Your task to perform on an android device: uninstall "Microsoft Authenticator" Image 0: 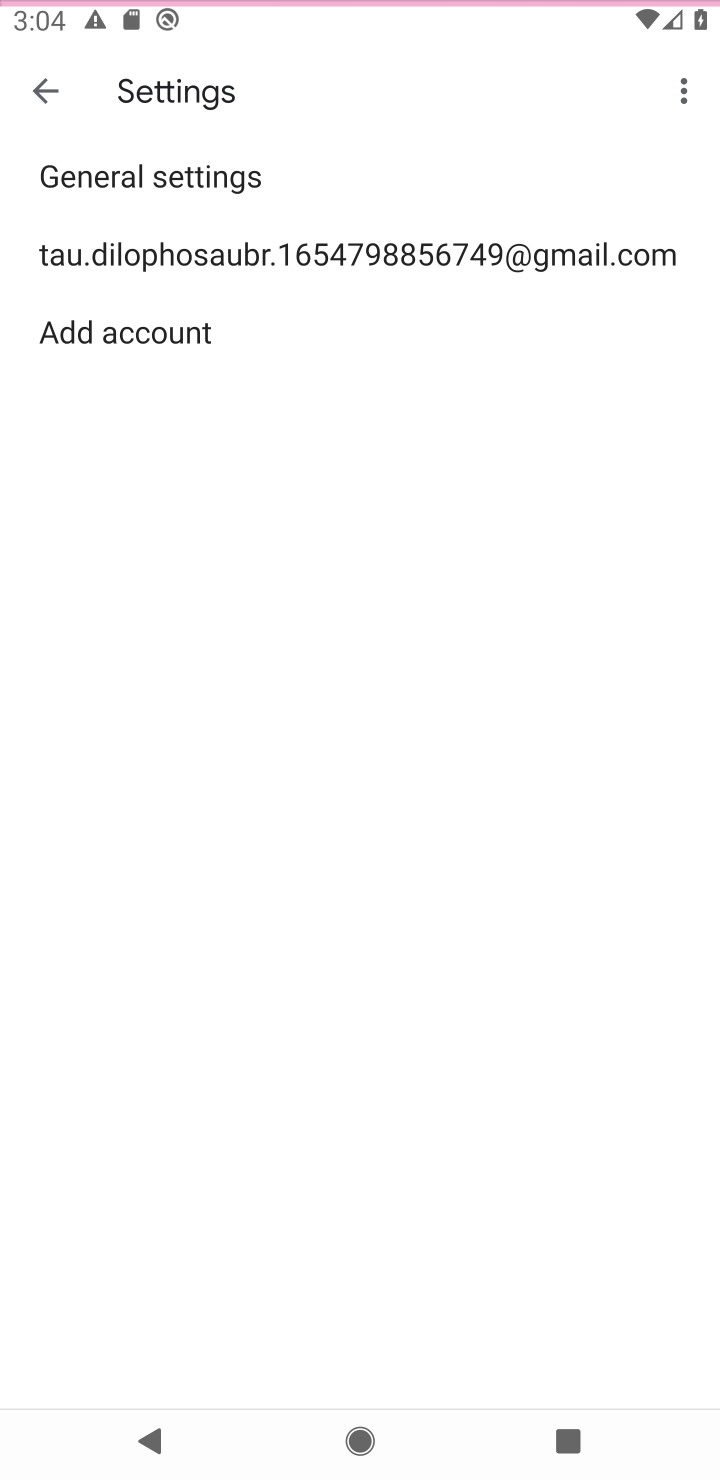
Step 0: press back button
Your task to perform on an android device: uninstall "Microsoft Authenticator" Image 1: 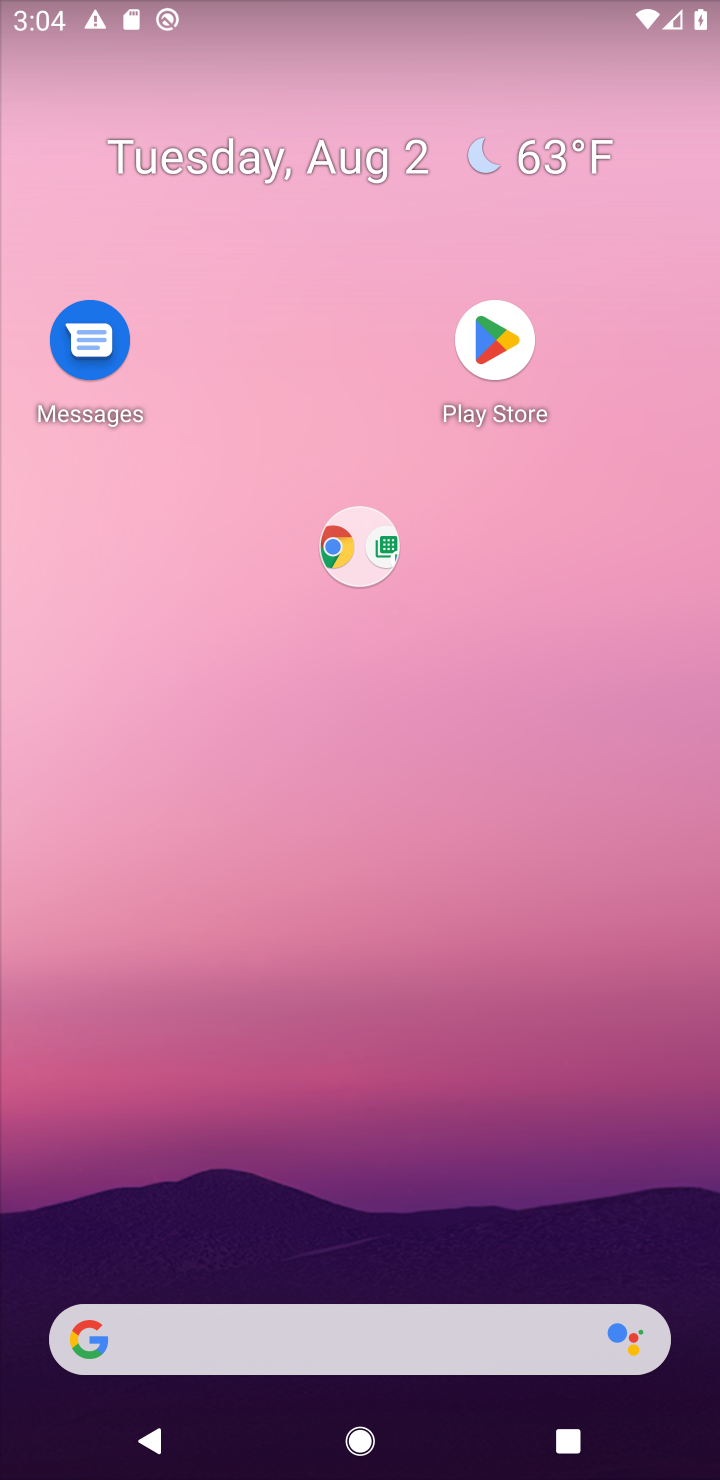
Step 1: click (41, 89)
Your task to perform on an android device: uninstall "Microsoft Authenticator" Image 2: 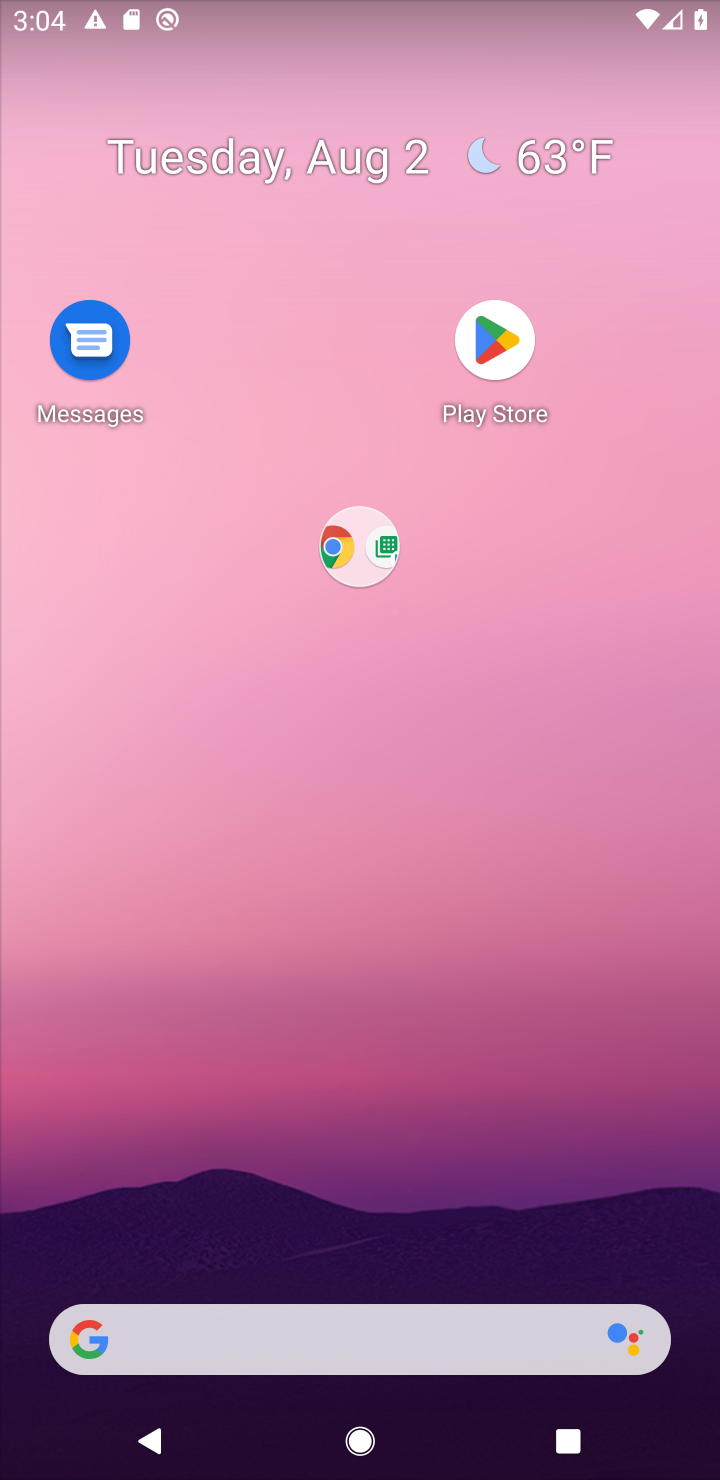
Step 2: press back button
Your task to perform on an android device: uninstall "Microsoft Authenticator" Image 3: 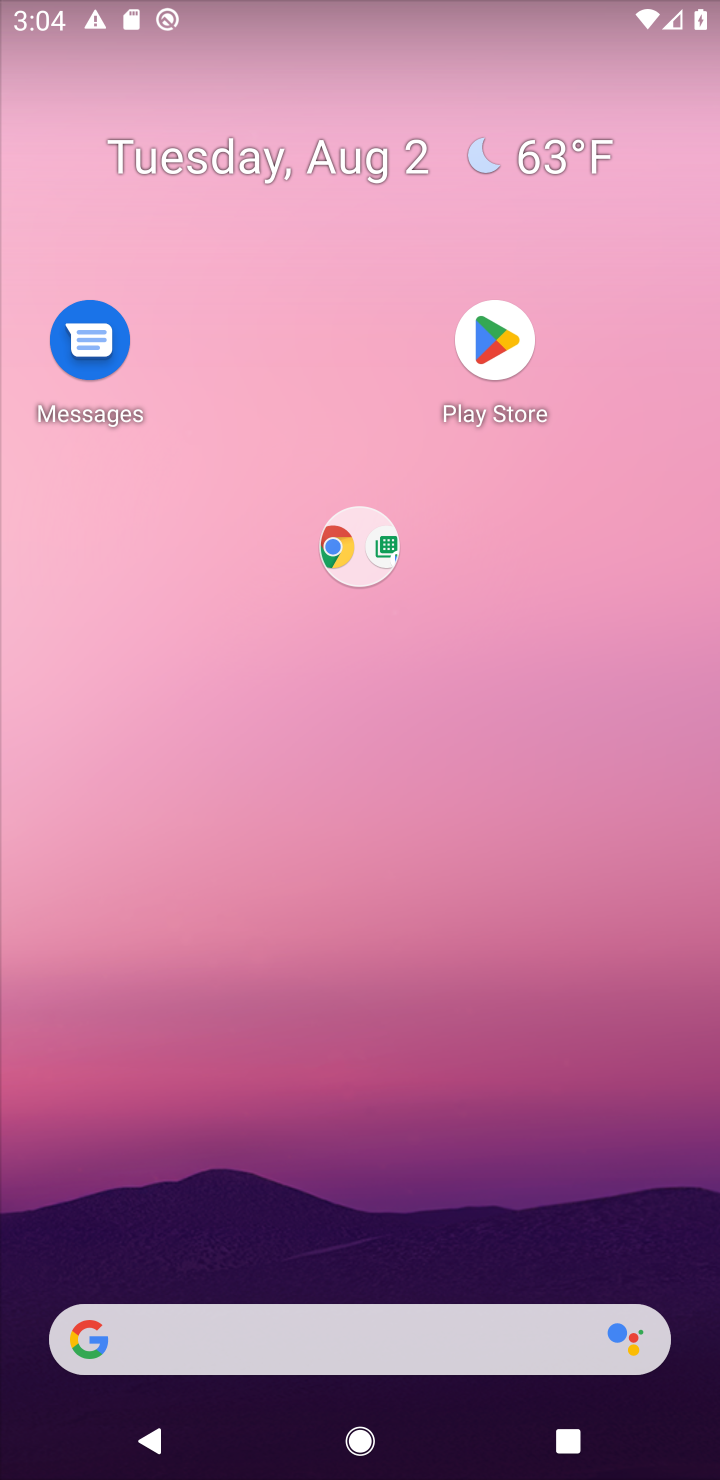
Step 3: click (472, 345)
Your task to perform on an android device: uninstall "Microsoft Authenticator" Image 4: 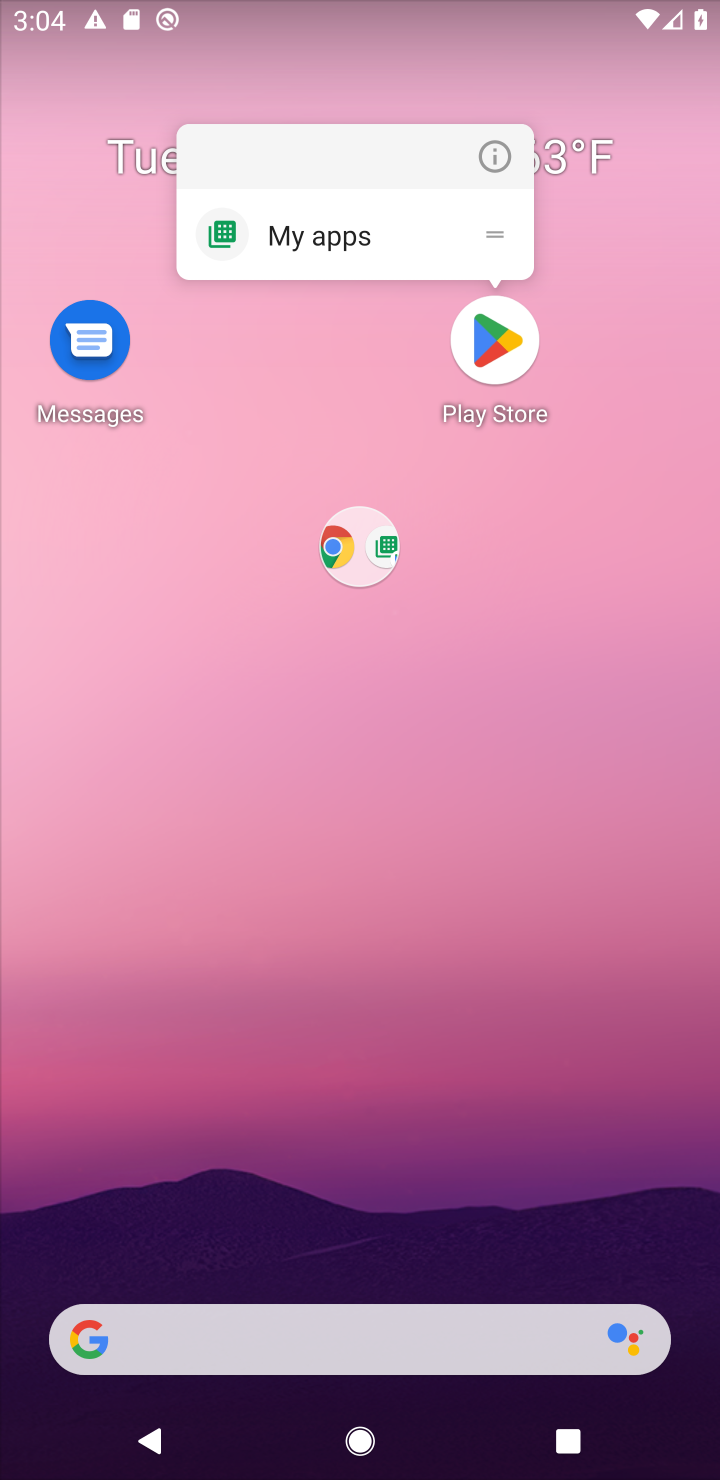
Step 4: click (478, 345)
Your task to perform on an android device: uninstall "Microsoft Authenticator" Image 5: 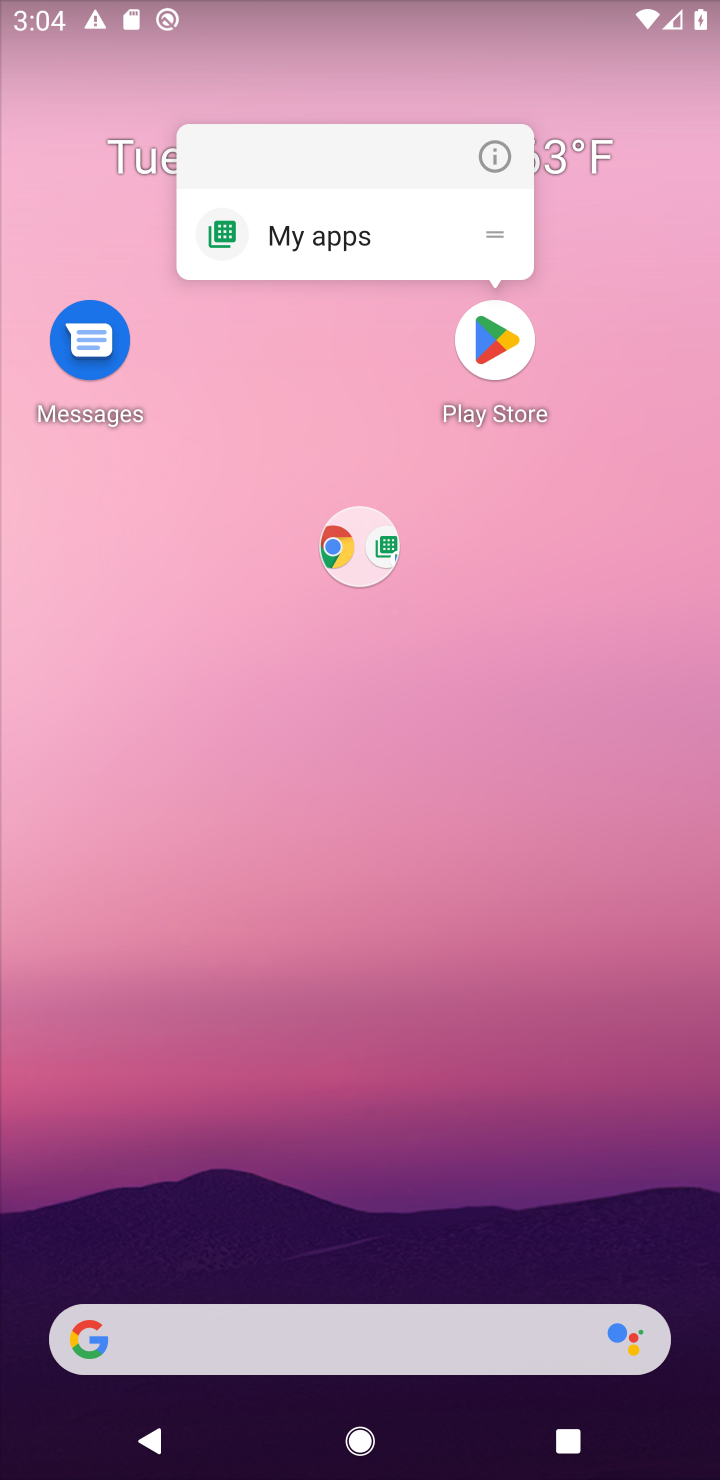
Step 5: click (339, 244)
Your task to perform on an android device: uninstall "Microsoft Authenticator" Image 6: 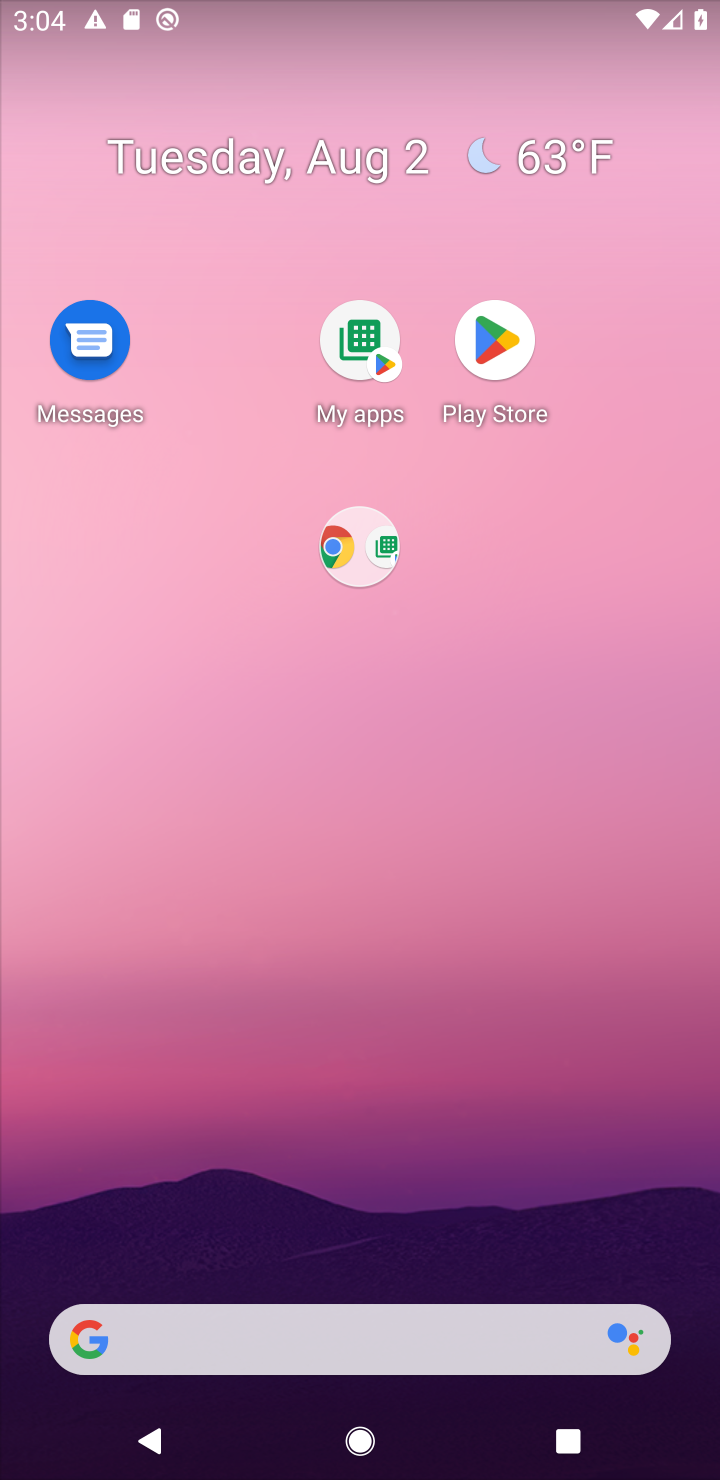
Step 6: drag from (452, 1248) to (394, 148)
Your task to perform on an android device: uninstall "Microsoft Authenticator" Image 7: 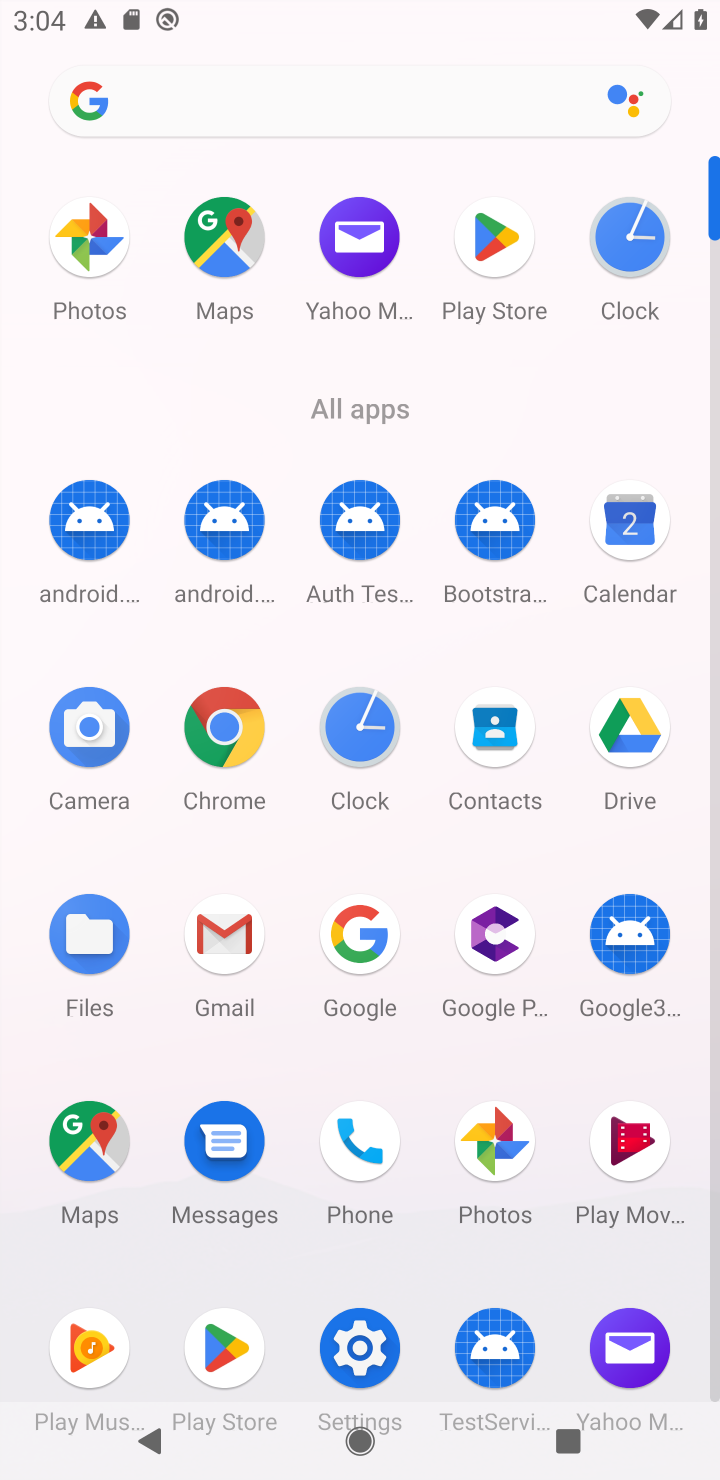
Step 7: click (487, 232)
Your task to perform on an android device: uninstall "Microsoft Authenticator" Image 8: 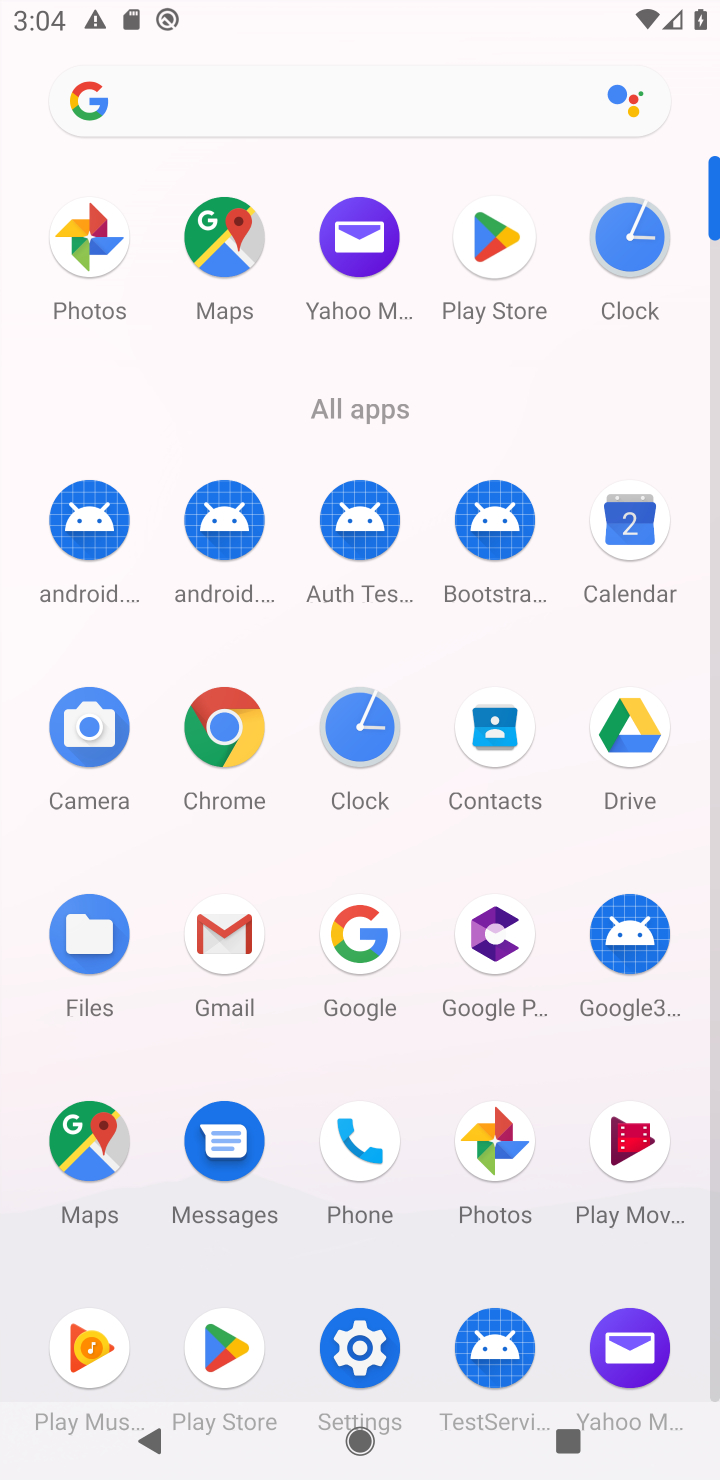
Step 8: click (487, 235)
Your task to perform on an android device: uninstall "Microsoft Authenticator" Image 9: 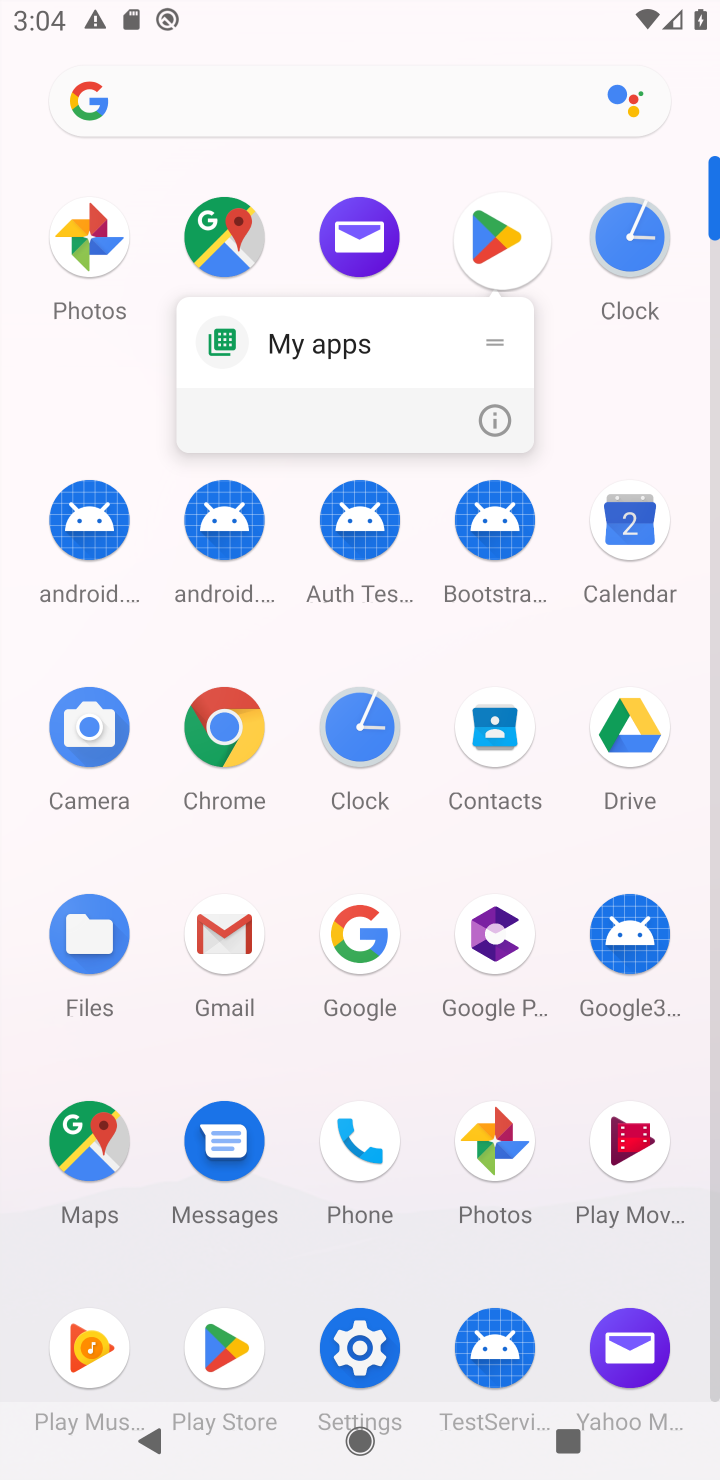
Step 9: click (495, 239)
Your task to perform on an android device: uninstall "Microsoft Authenticator" Image 10: 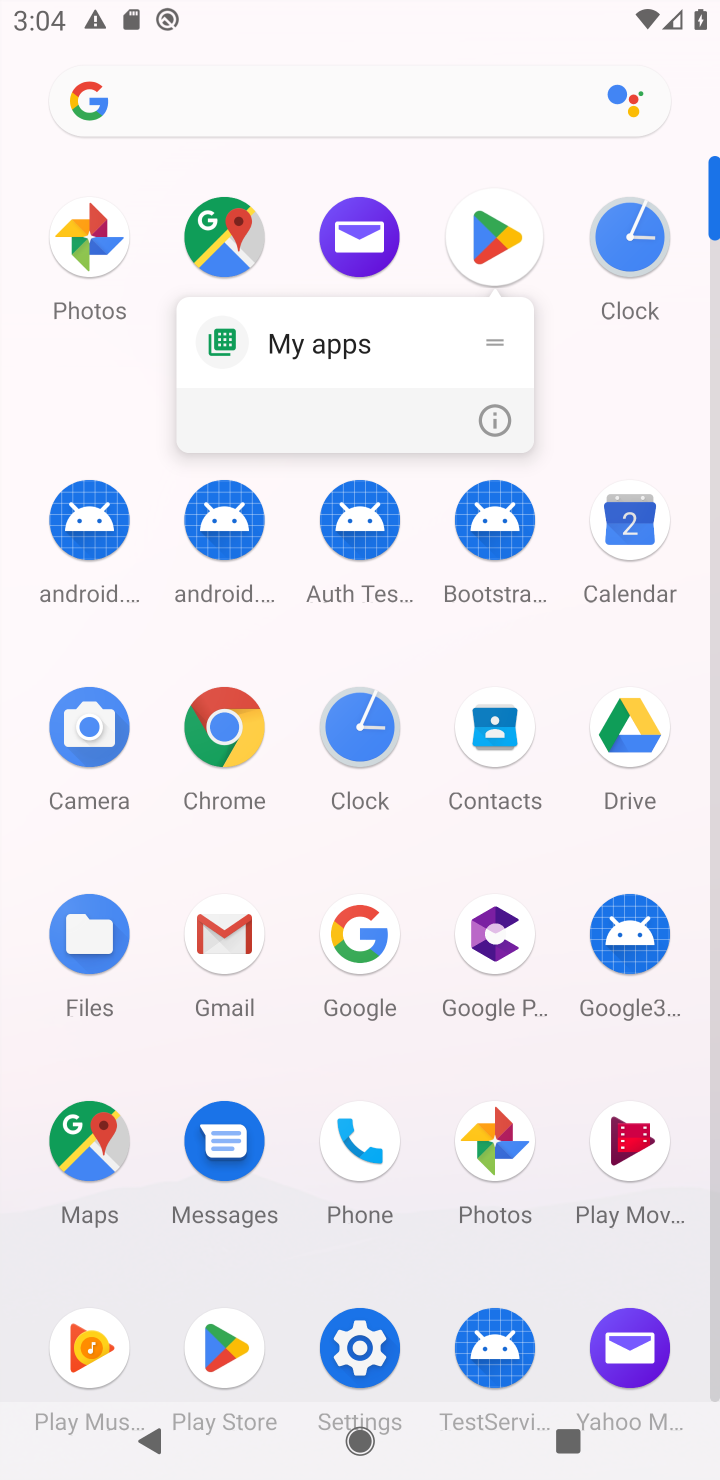
Step 10: click (310, 341)
Your task to perform on an android device: uninstall "Microsoft Authenticator" Image 11: 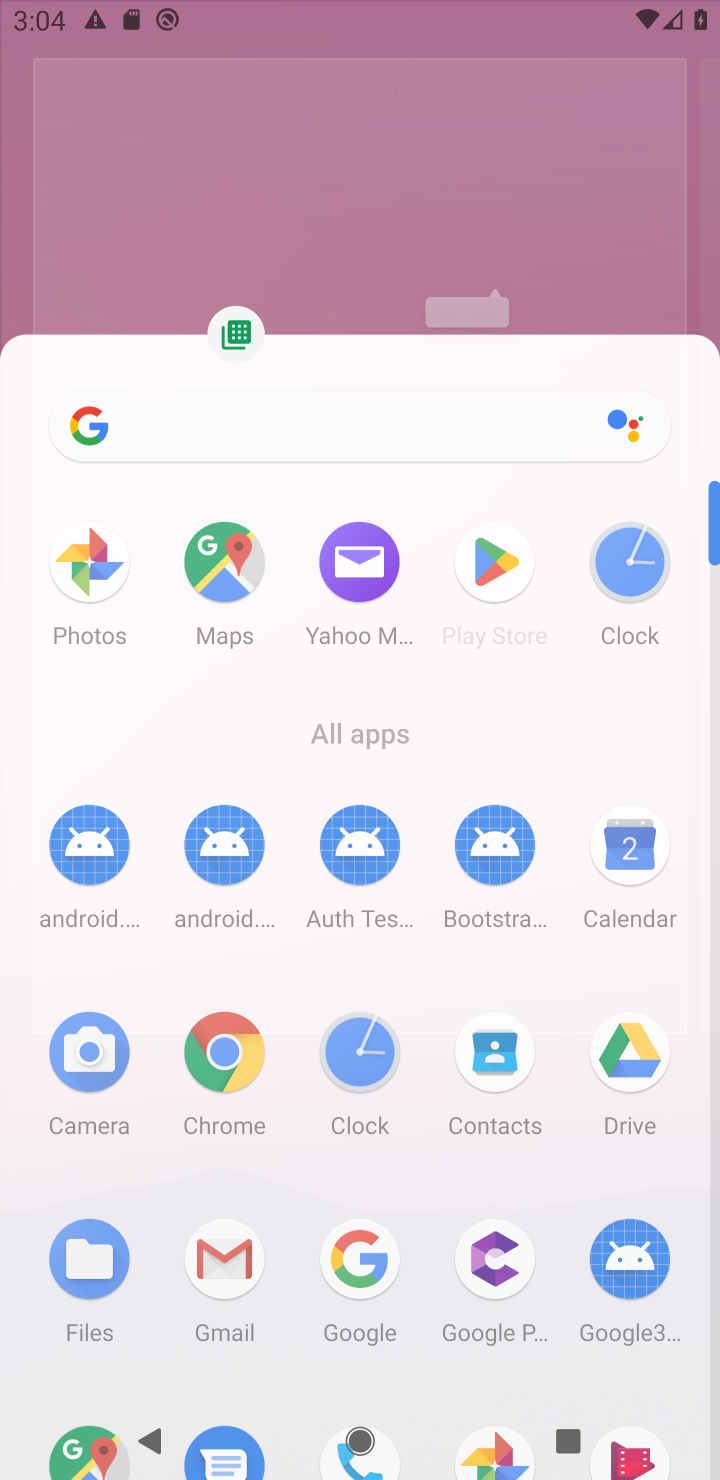
Step 11: click (375, 339)
Your task to perform on an android device: uninstall "Microsoft Authenticator" Image 12: 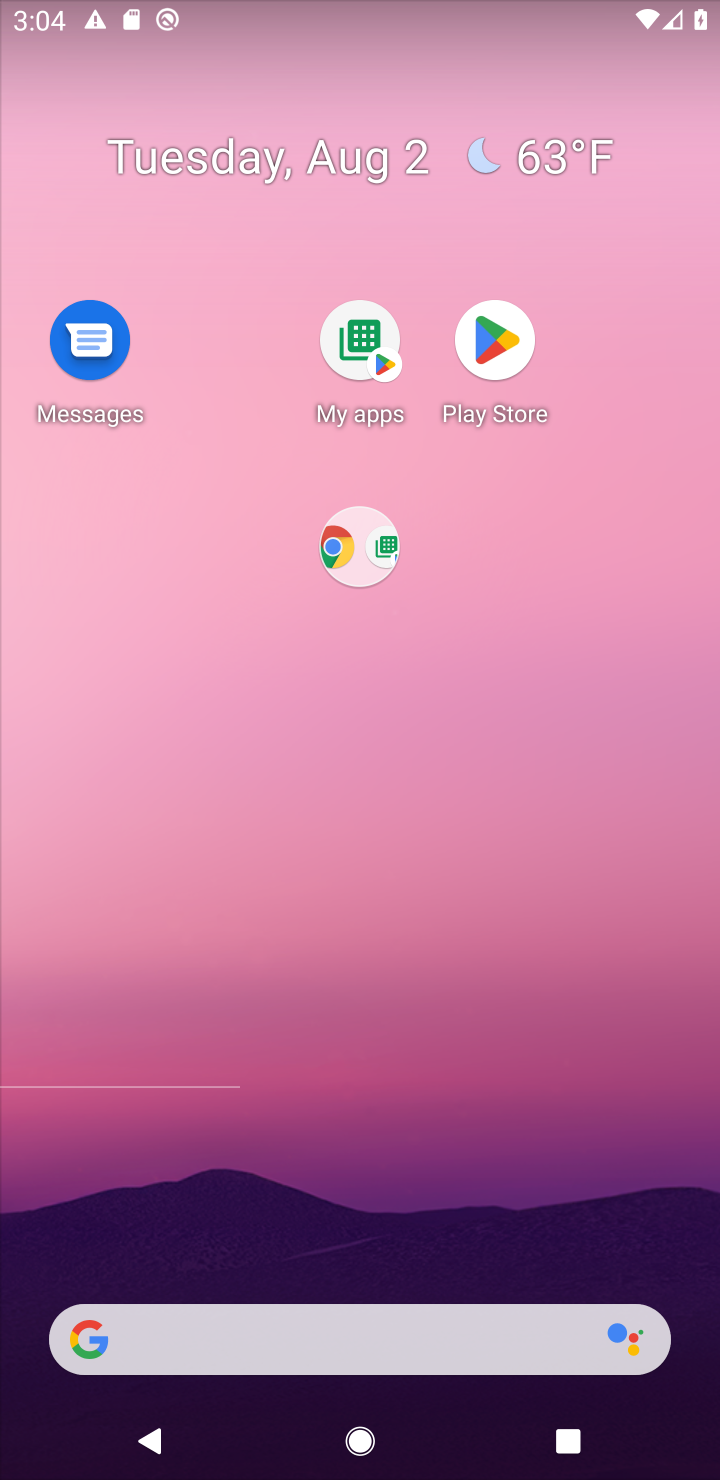
Step 12: click (475, 326)
Your task to perform on an android device: uninstall "Microsoft Authenticator" Image 13: 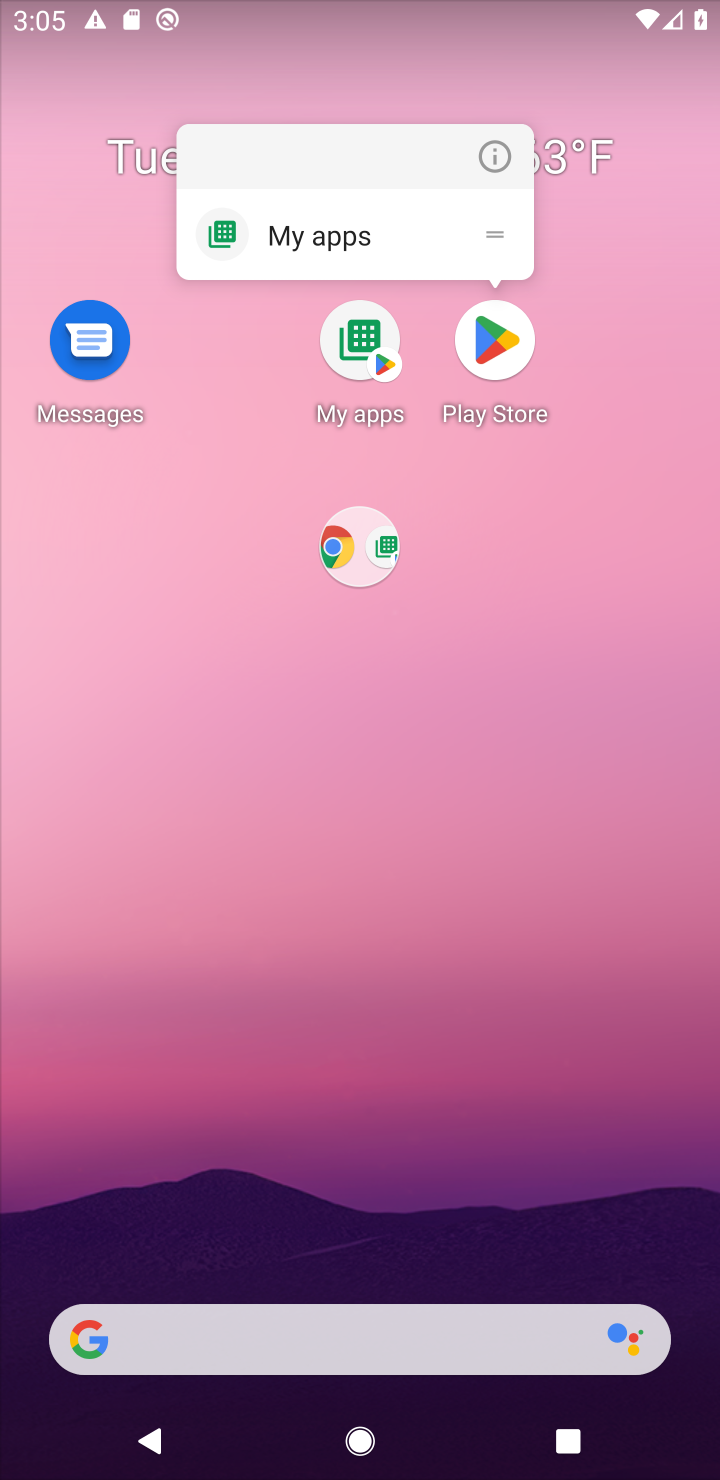
Step 13: click (504, 379)
Your task to perform on an android device: uninstall "Microsoft Authenticator" Image 14: 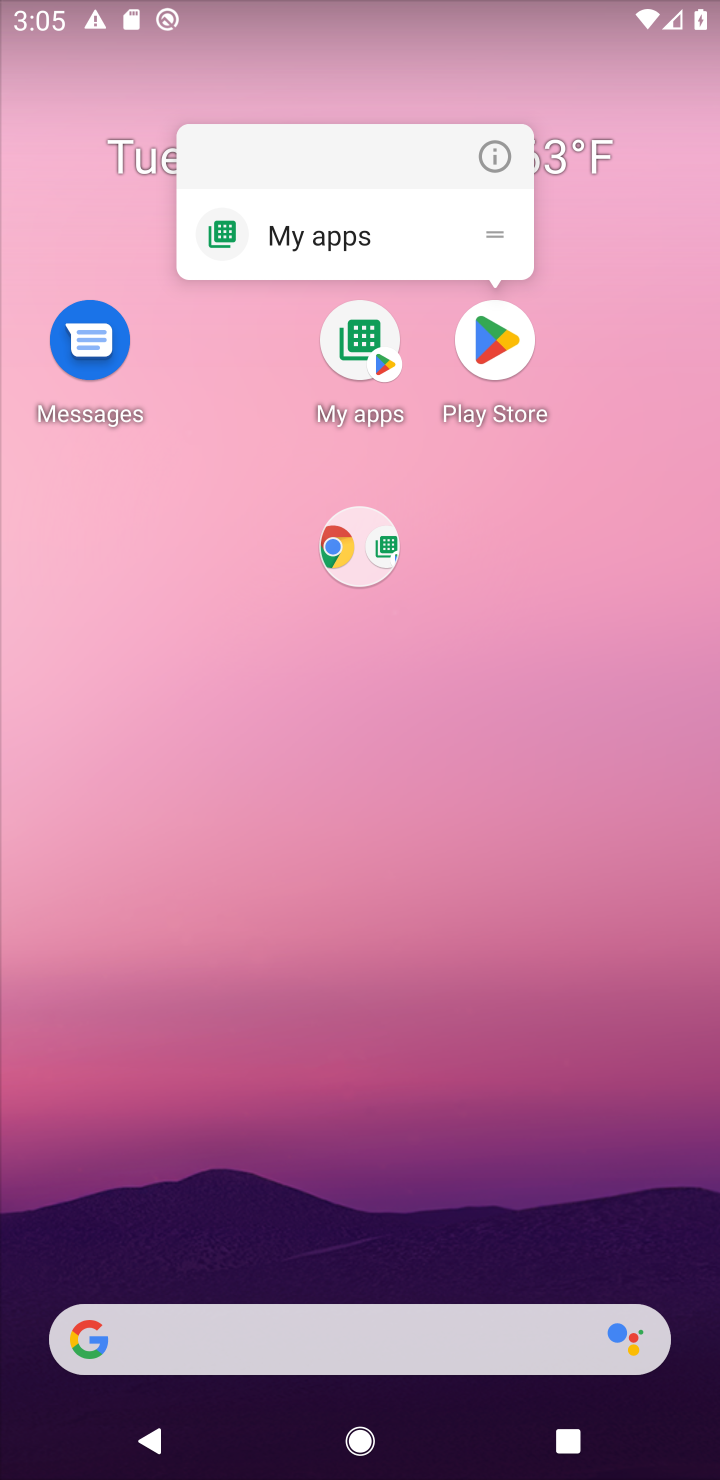
Step 14: click (509, 360)
Your task to perform on an android device: uninstall "Microsoft Authenticator" Image 15: 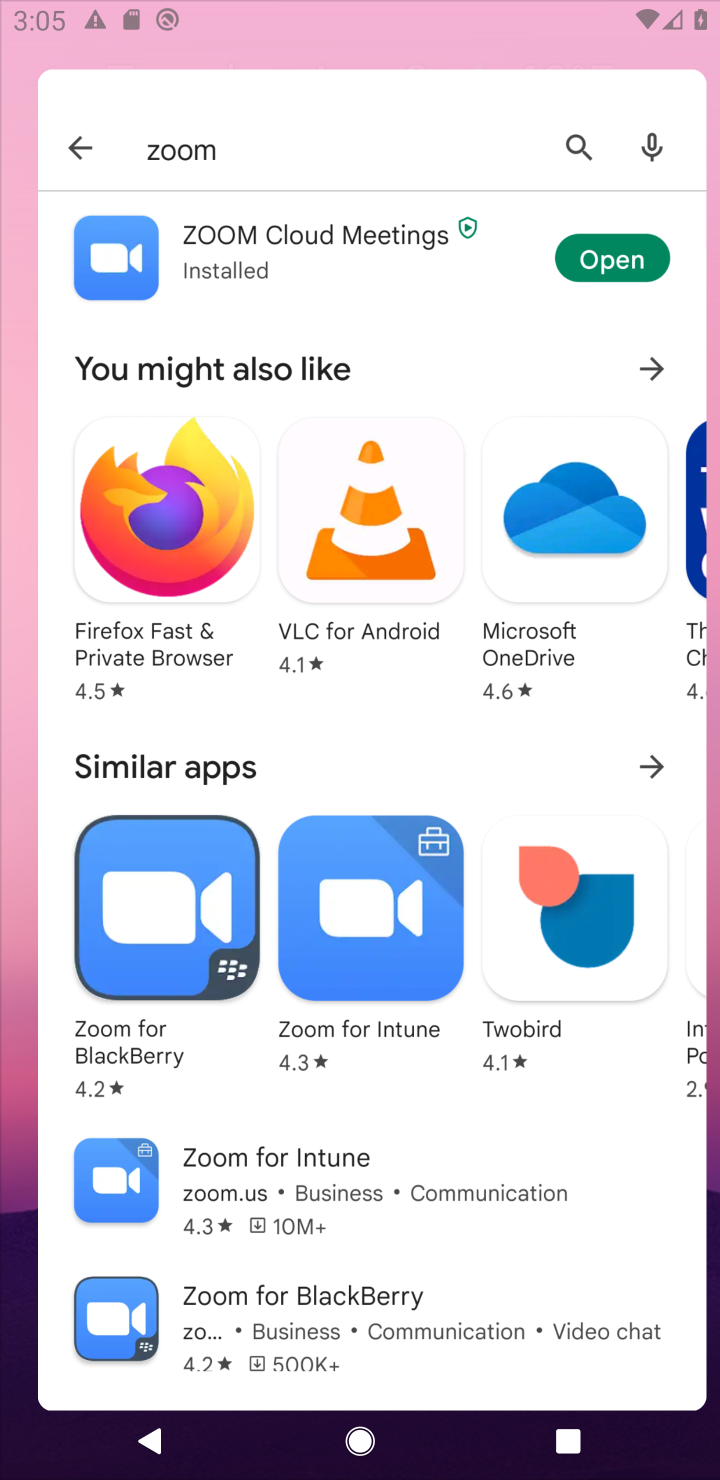
Step 15: click (372, 238)
Your task to perform on an android device: uninstall "Microsoft Authenticator" Image 16: 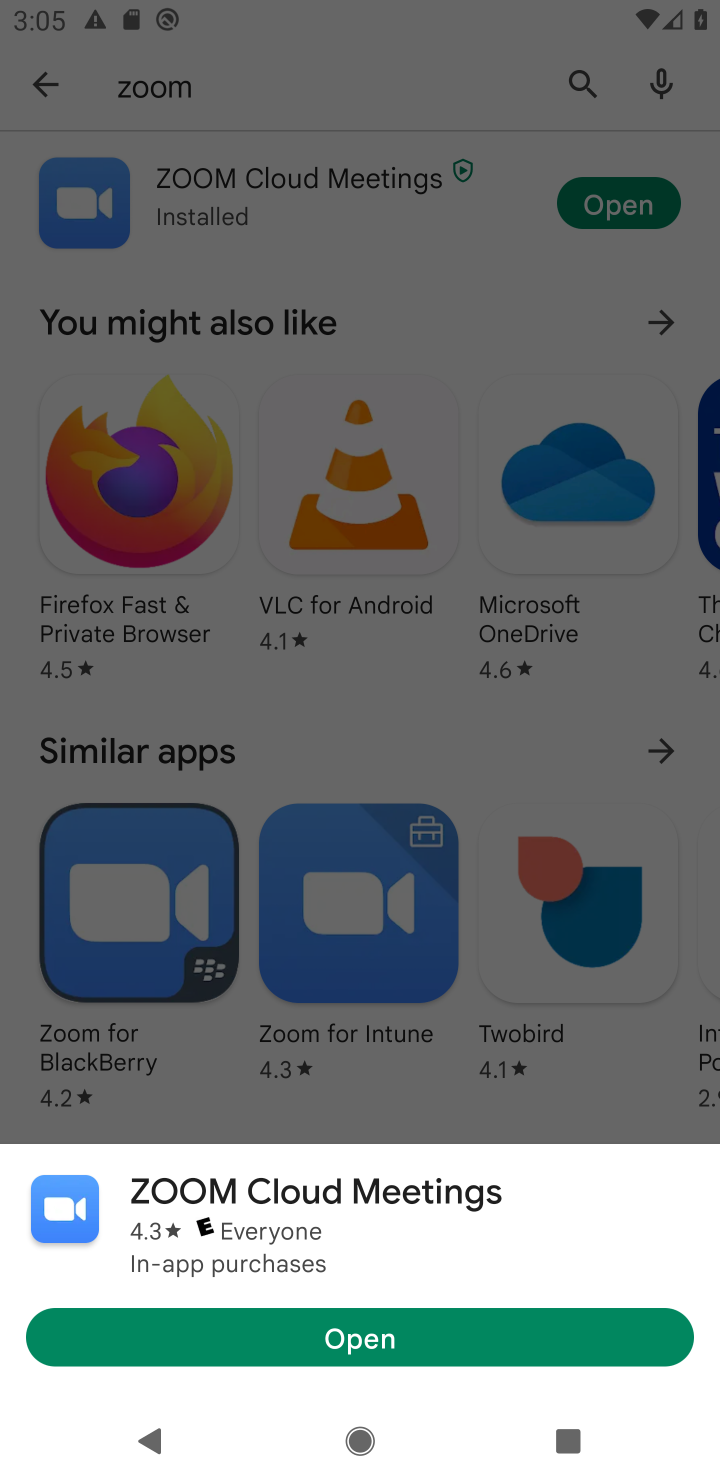
Step 16: click (574, 73)
Your task to perform on an android device: uninstall "Microsoft Authenticator" Image 17: 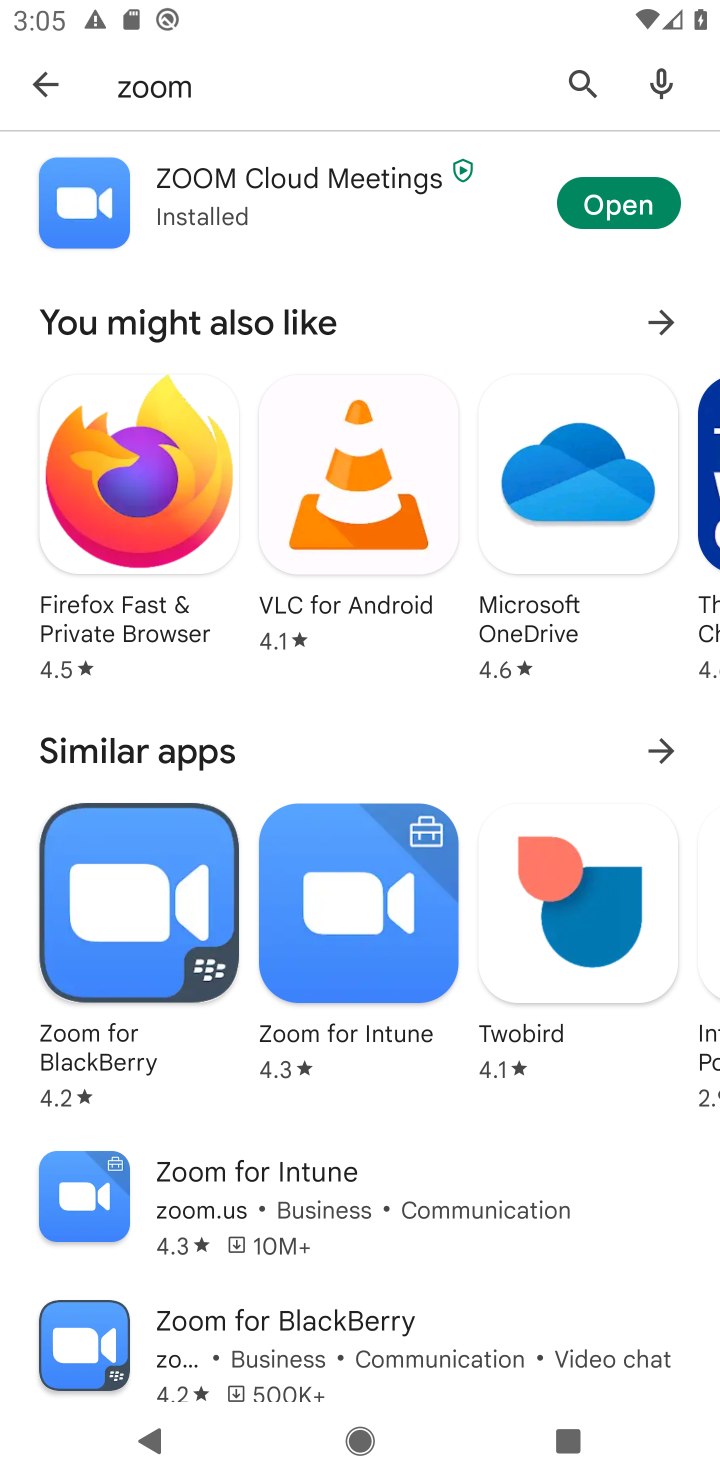
Step 17: click (576, 75)
Your task to perform on an android device: uninstall "Microsoft Authenticator" Image 18: 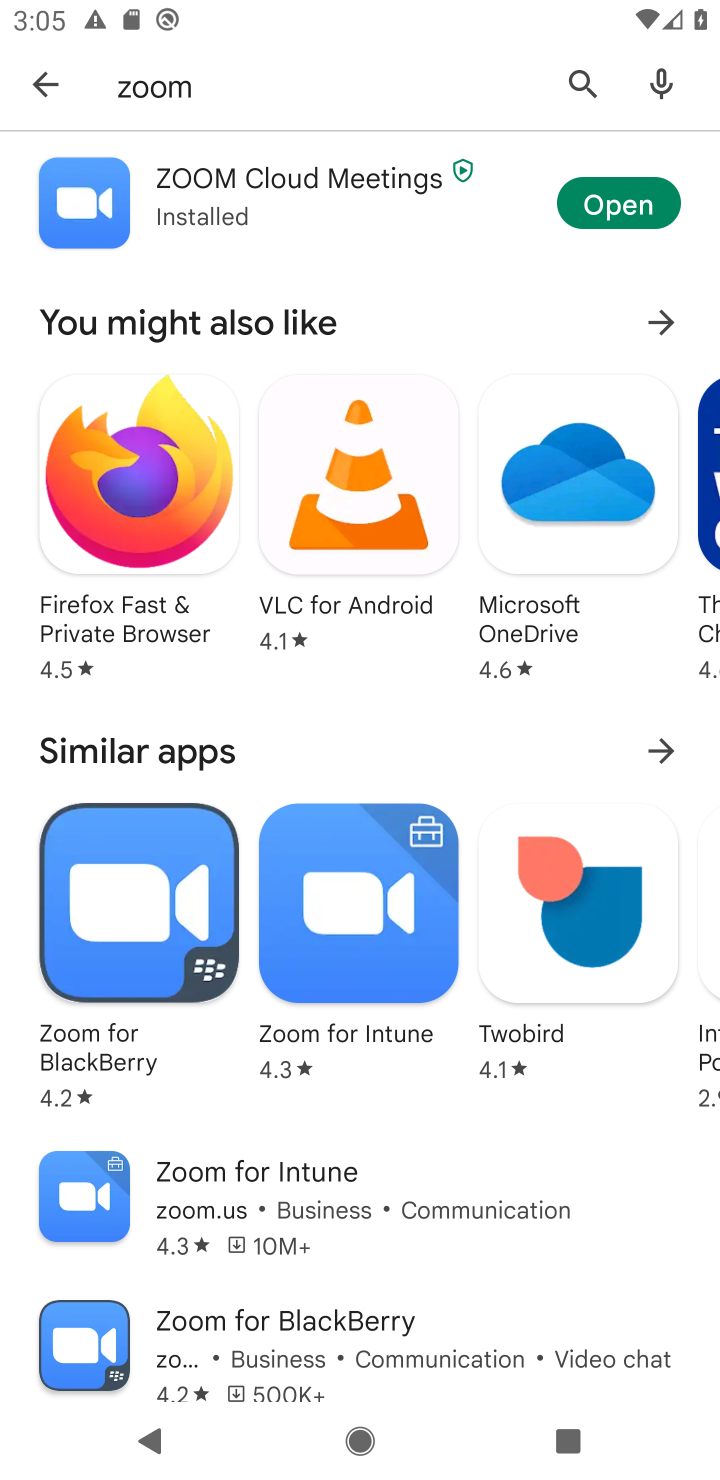
Step 18: click (587, 73)
Your task to perform on an android device: uninstall "Microsoft Authenticator" Image 19: 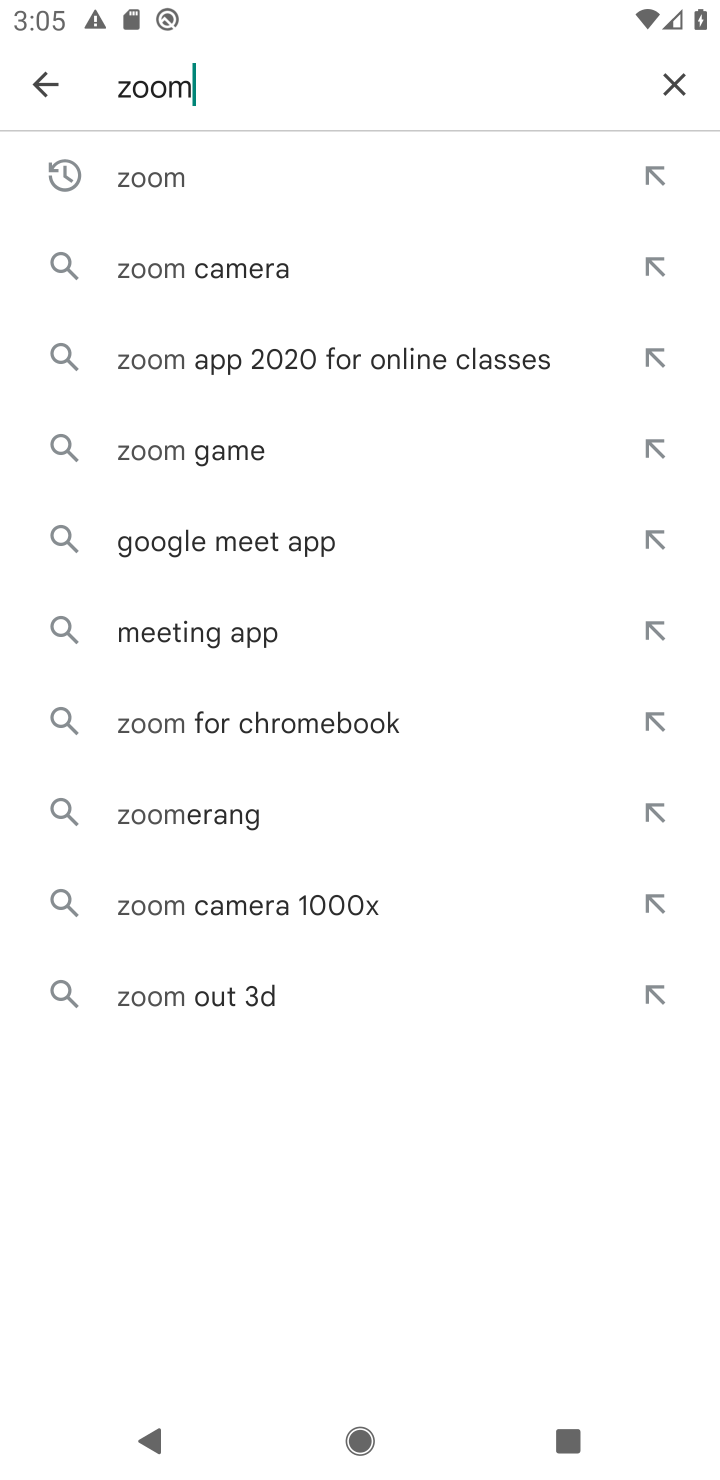
Step 19: click (593, 71)
Your task to perform on an android device: uninstall "Microsoft Authenticator" Image 20: 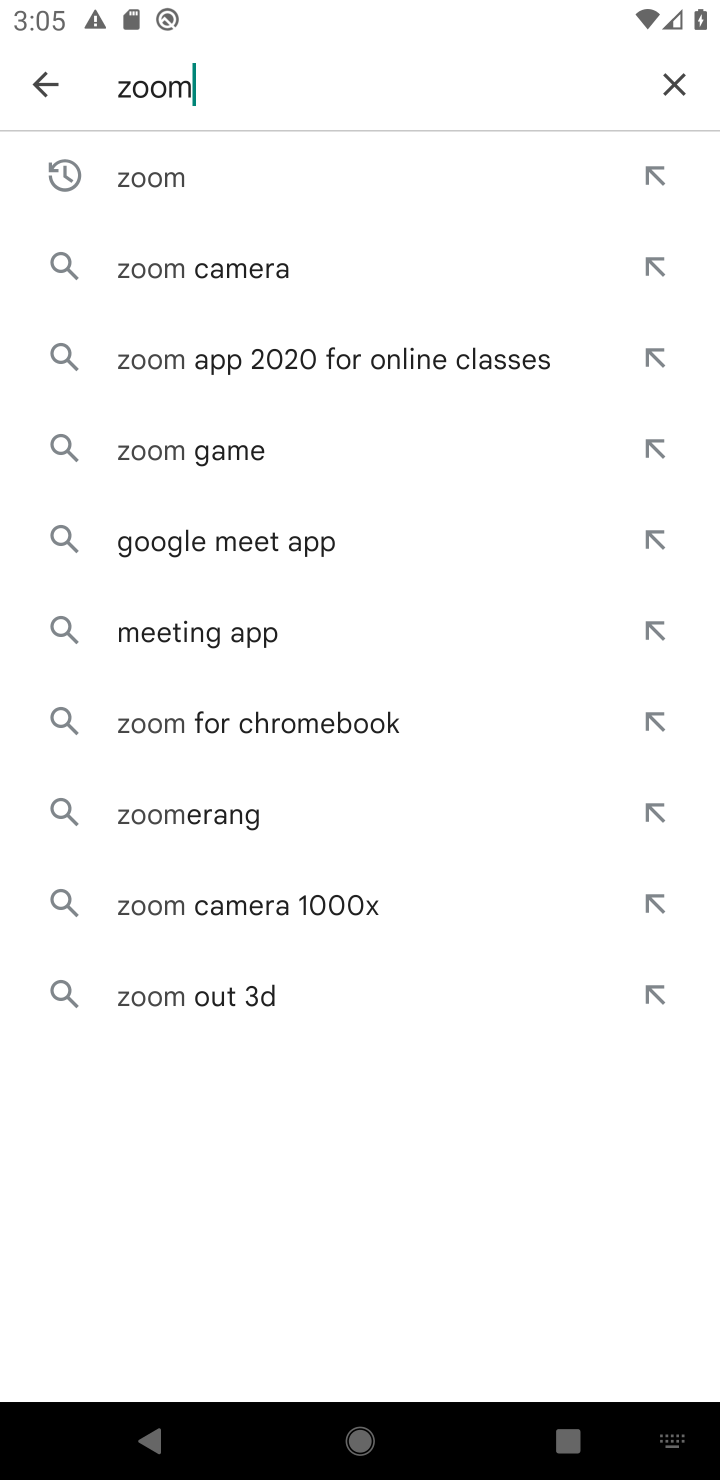
Step 20: click (670, 75)
Your task to perform on an android device: uninstall "Microsoft Authenticator" Image 21: 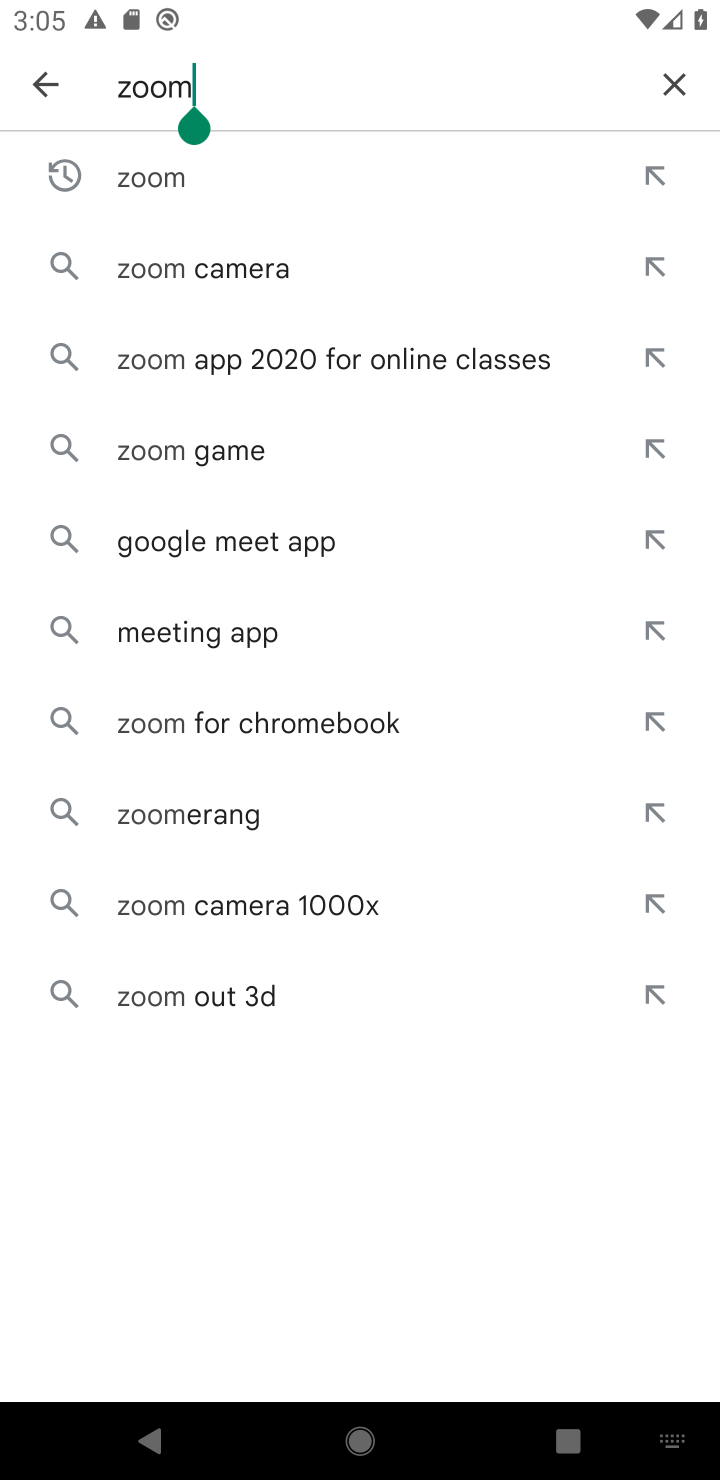
Step 21: click (672, 71)
Your task to perform on an android device: uninstall "Microsoft Authenticator" Image 22: 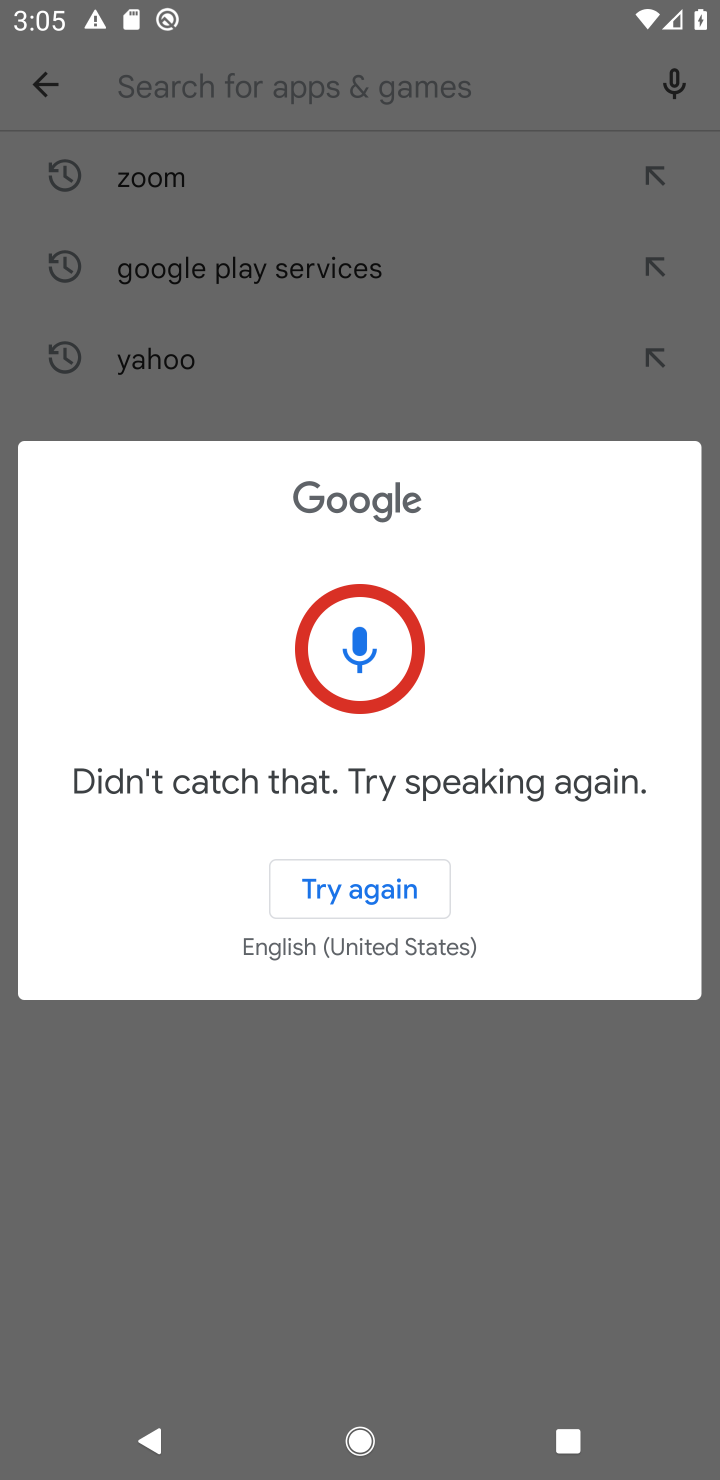
Step 22: type "microsoft"
Your task to perform on an android device: uninstall "Microsoft Authenticator" Image 23: 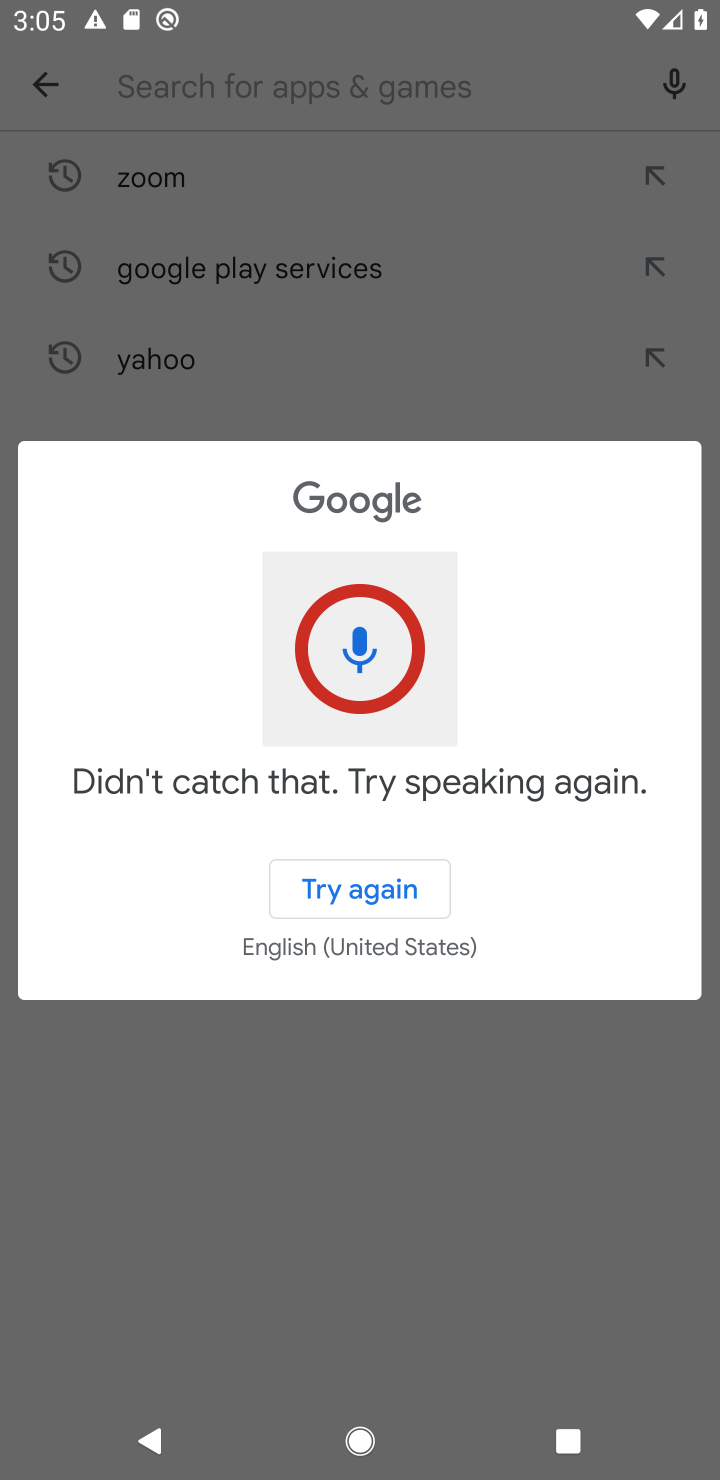
Step 23: click (436, 349)
Your task to perform on an android device: uninstall "Microsoft Authenticator" Image 24: 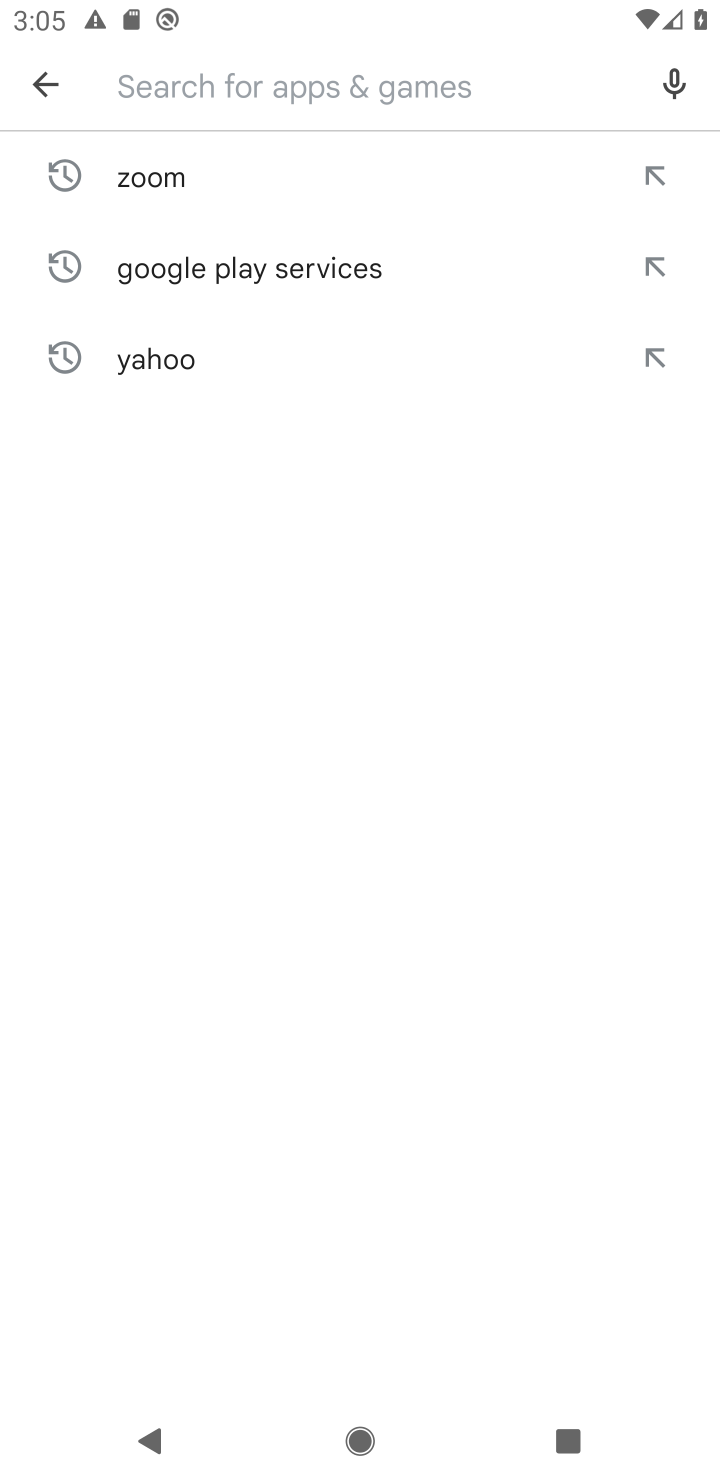
Step 24: click (442, 371)
Your task to perform on an android device: uninstall "Microsoft Authenticator" Image 25: 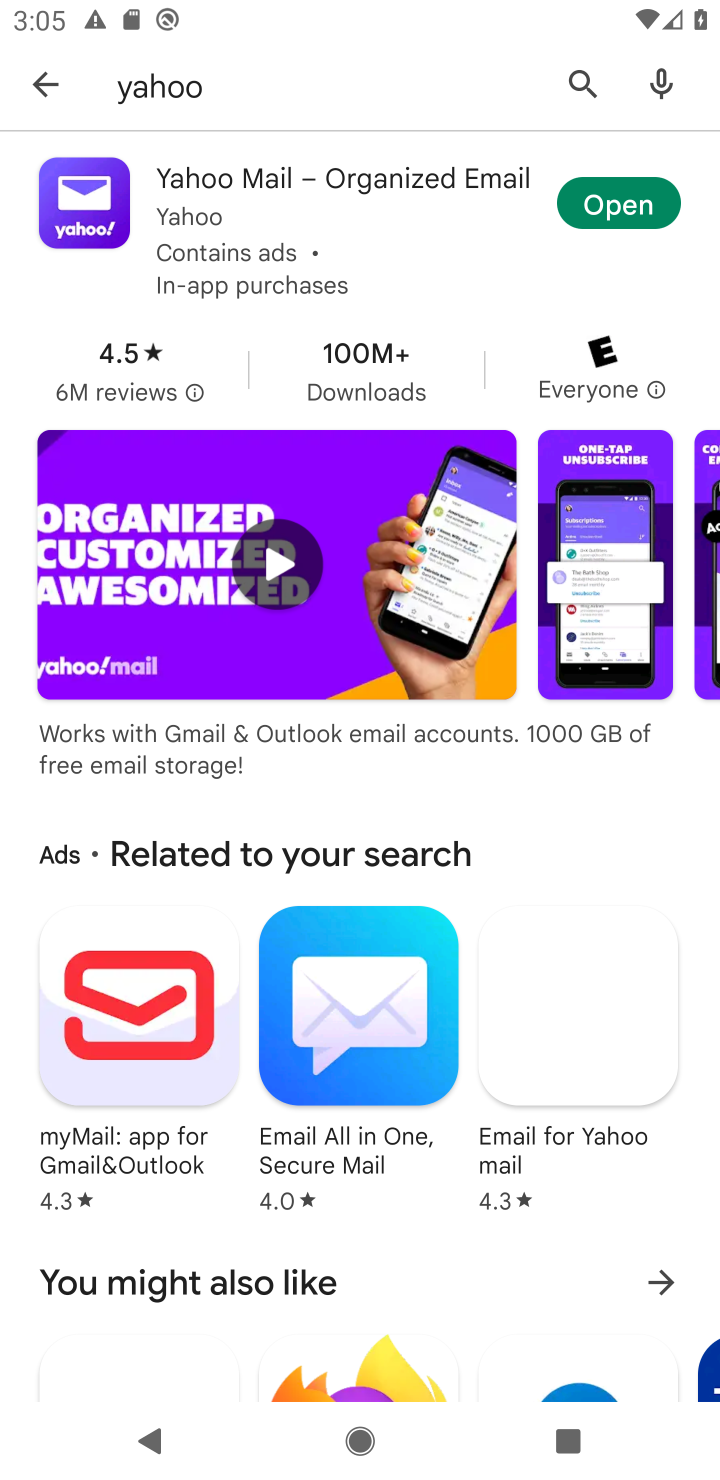
Step 25: click (572, 73)
Your task to perform on an android device: uninstall "Microsoft Authenticator" Image 26: 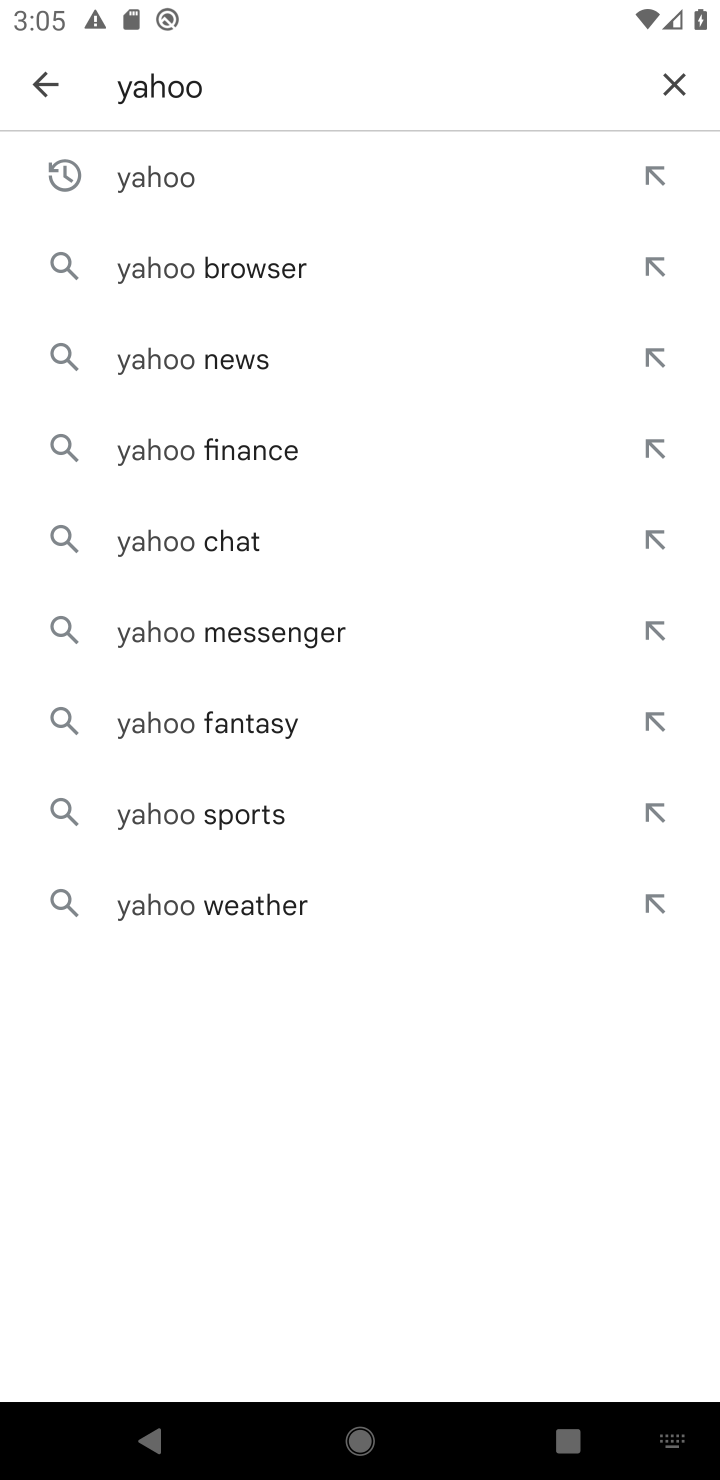
Step 26: type "microsoft"
Your task to perform on an android device: uninstall "Microsoft Authenticator" Image 27: 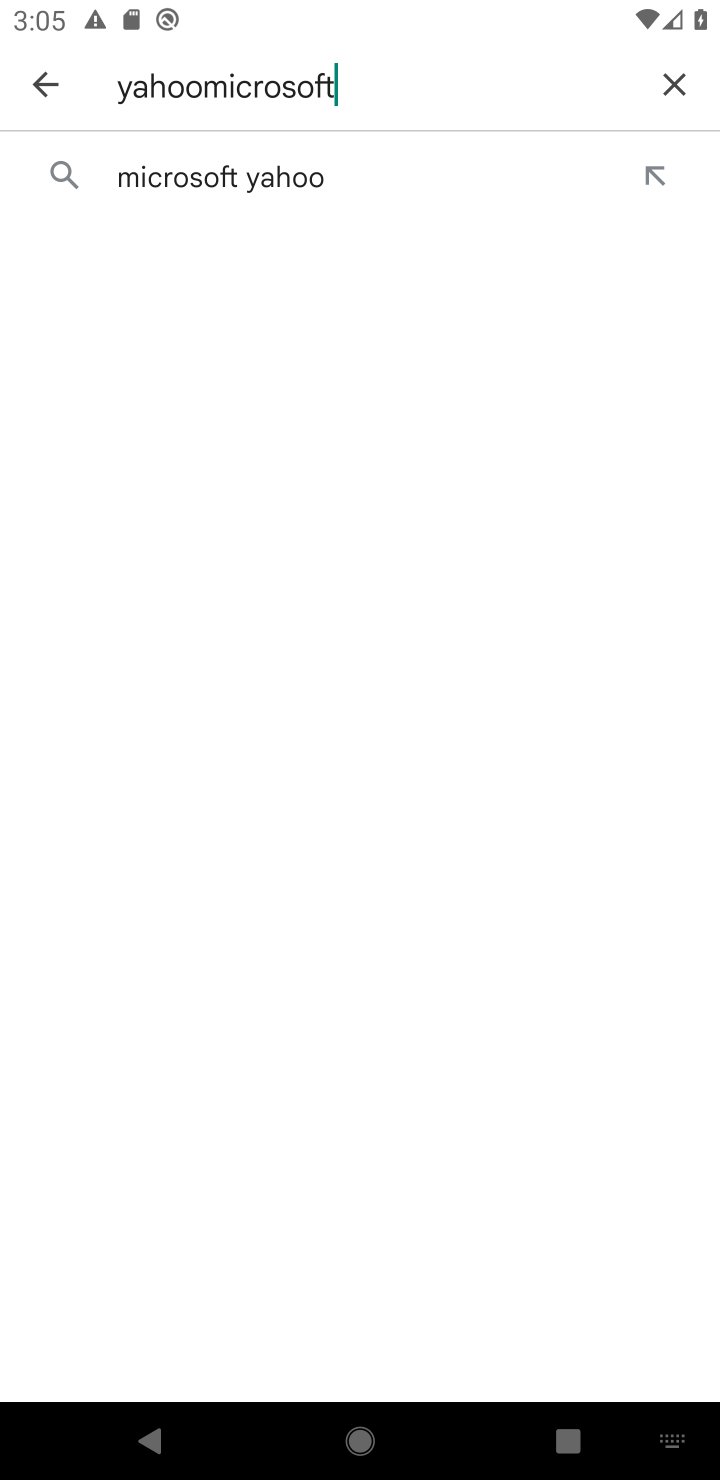
Step 27: click (229, 180)
Your task to perform on an android device: uninstall "Microsoft Authenticator" Image 28: 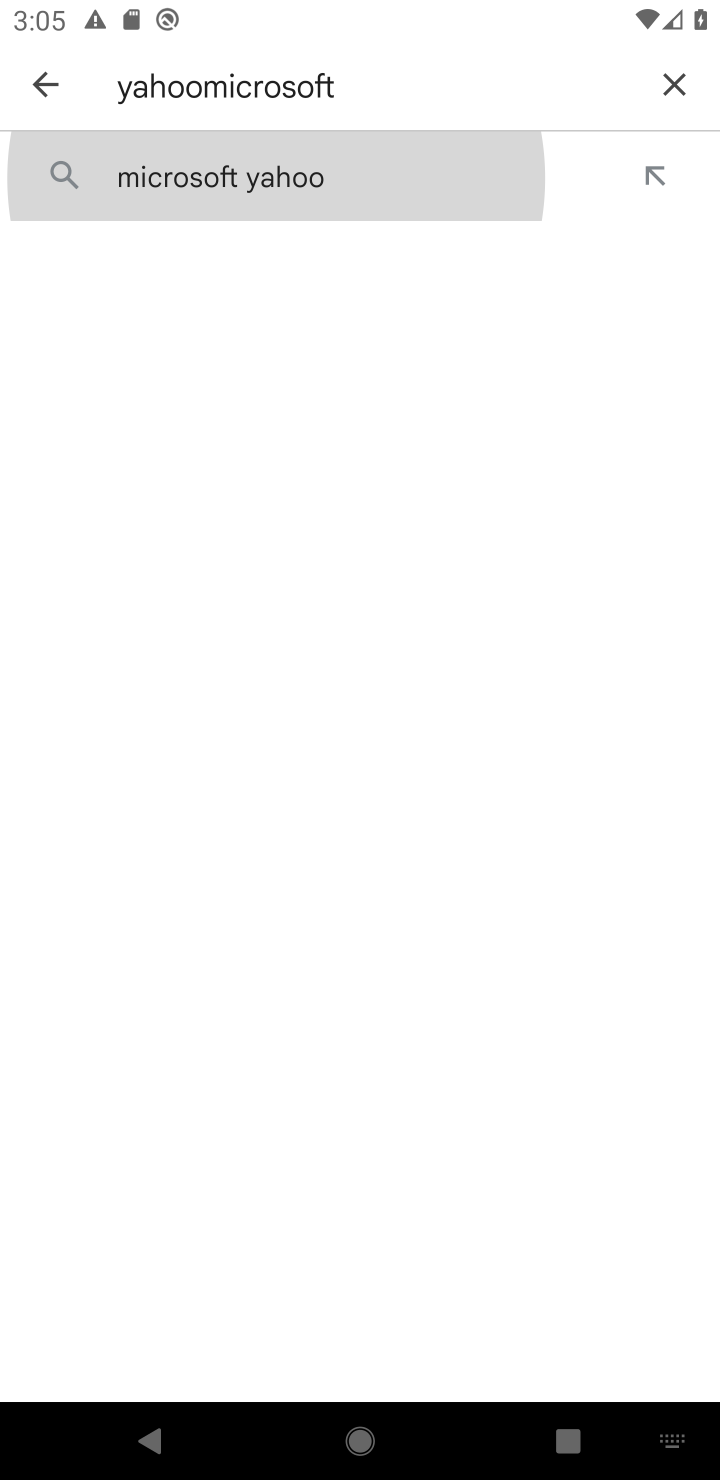
Step 28: click (231, 182)
Your task to perform on an android device: uninstall "Microsoft Authenticator" Image 29: 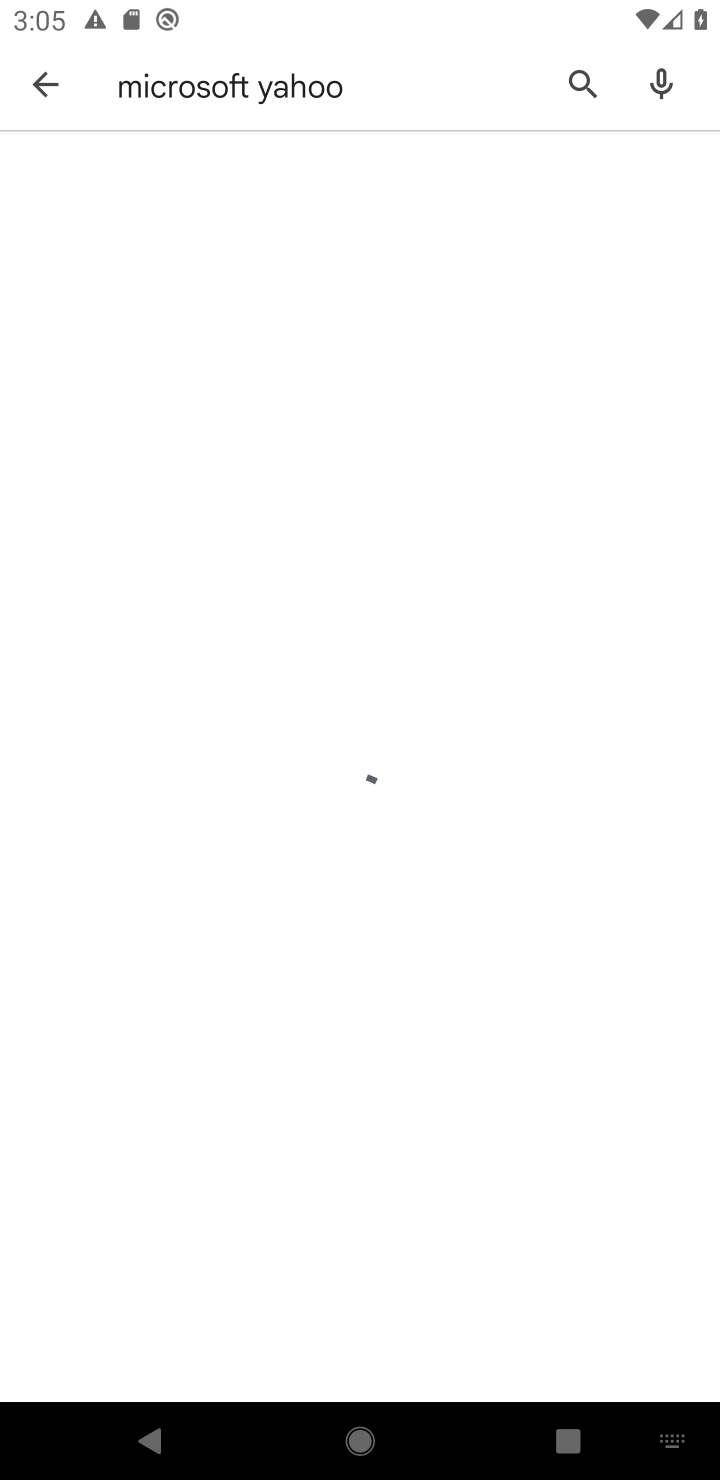
Step 29: click (233, 188)
Your task to perform on an android device: uninstall "Microsoft Authenticator" Image 30: 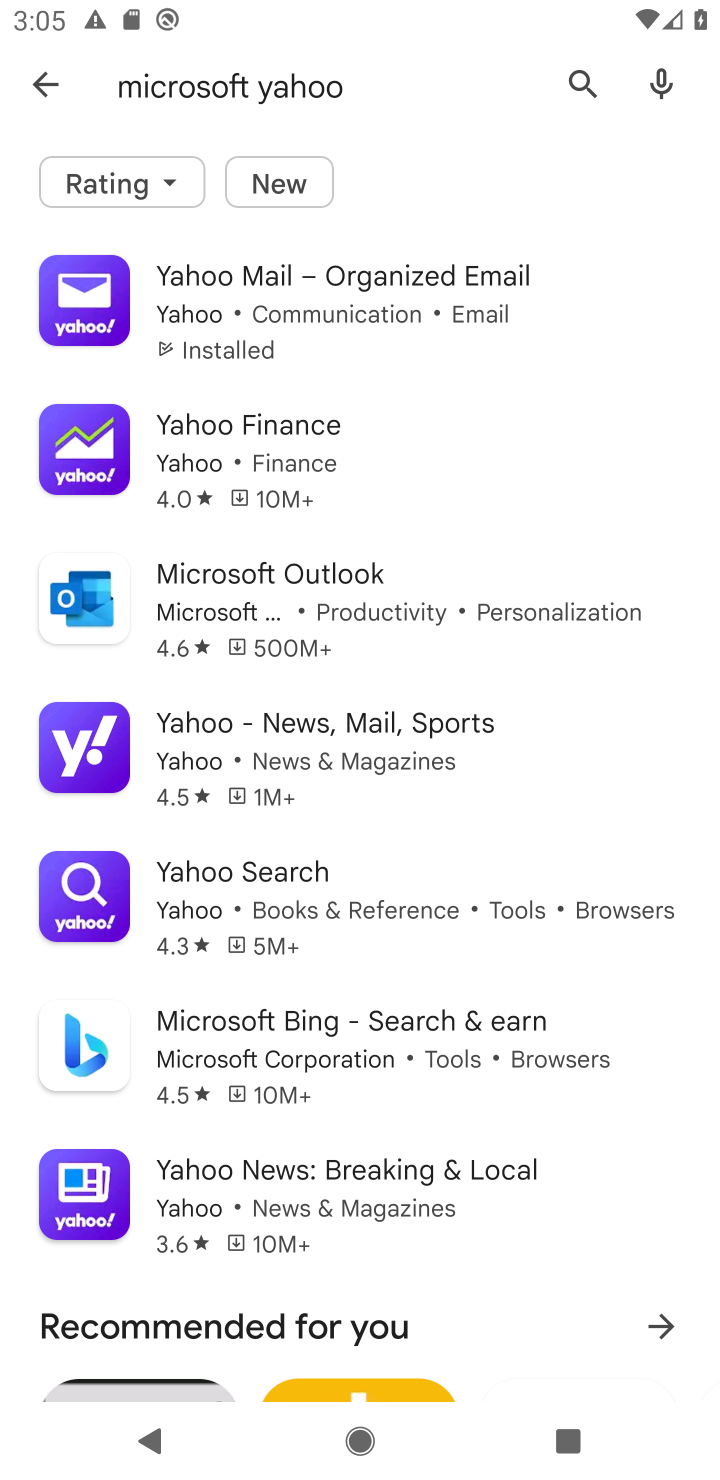
Step 30: drag from (277, 301) to (277, 1085)
Your task to perform on an android device: uninstall "Microsoft Authenticator" Image 31: 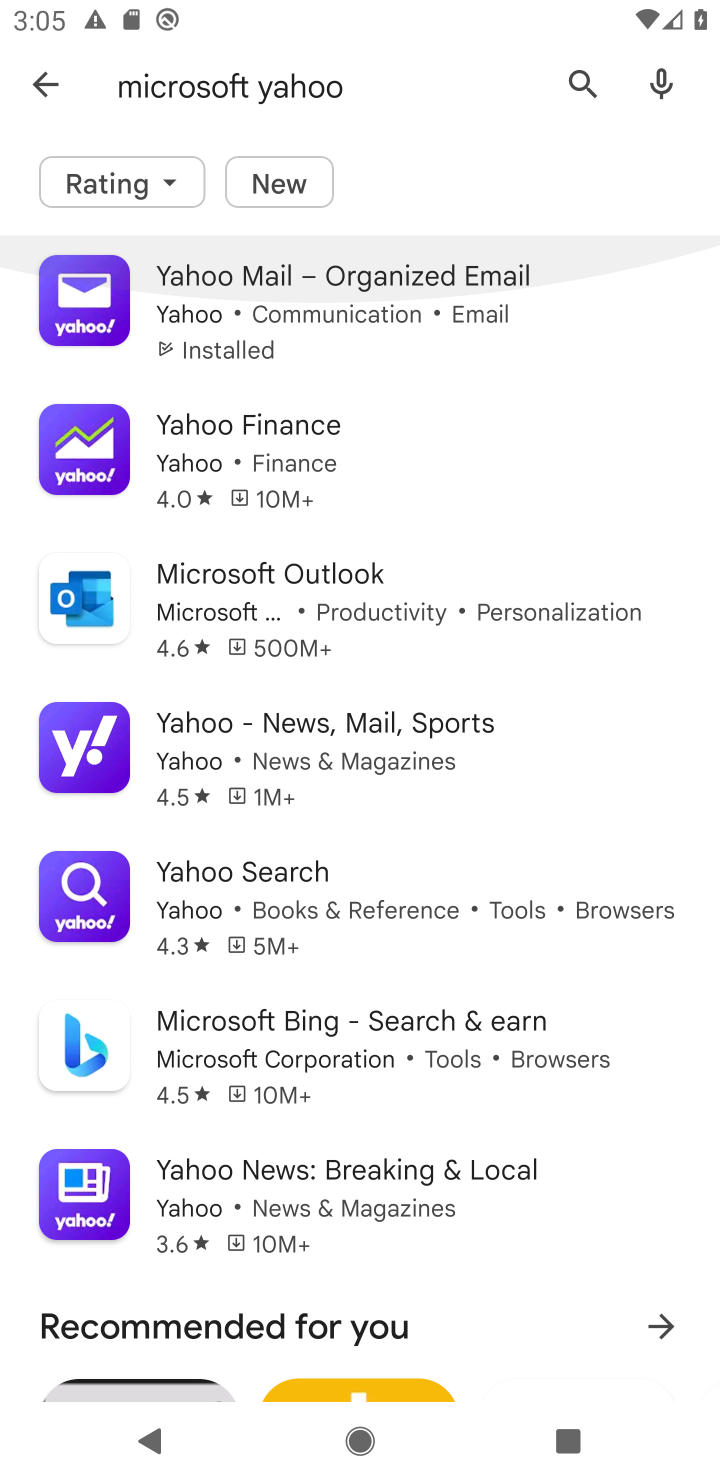
Step 31: click (571, 62)
Your task to perform on an android device: uninstall "Microsoft Authenticator" Image 32: 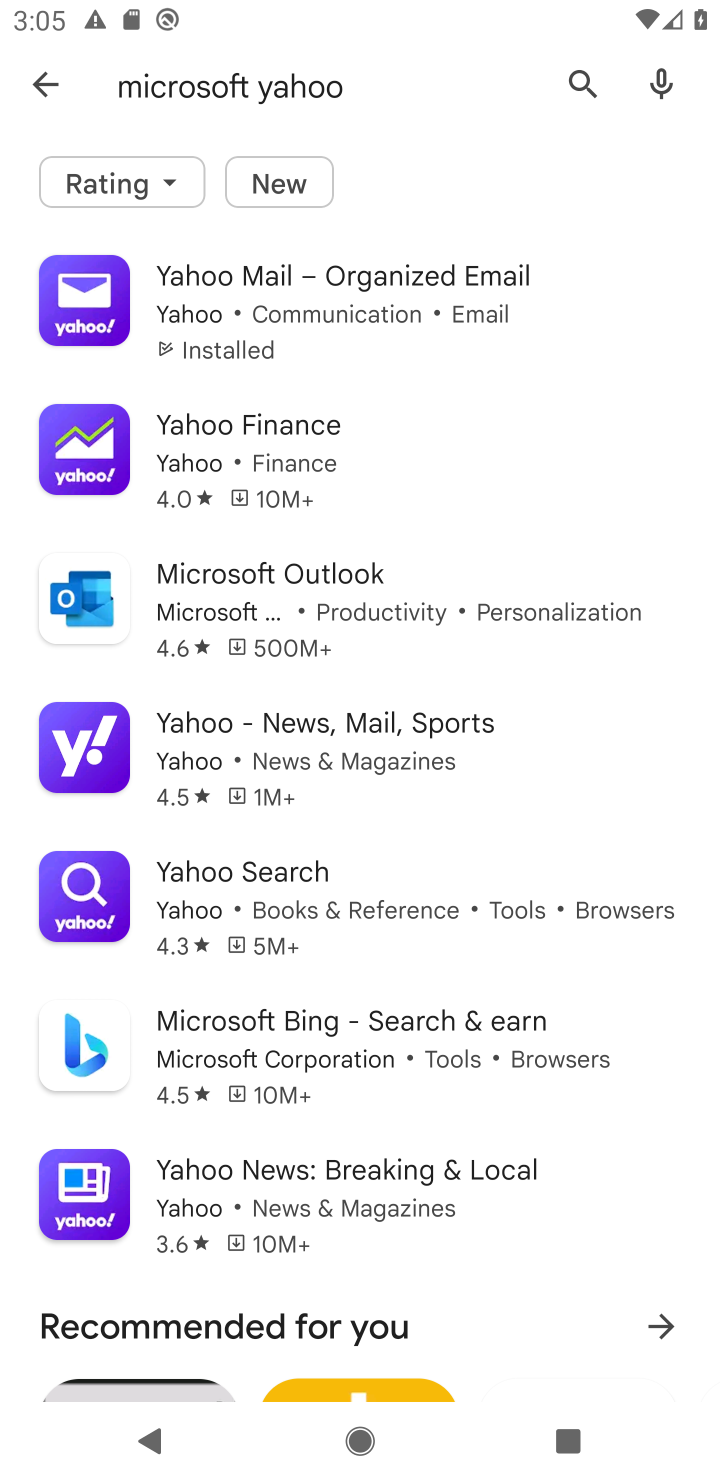
Step 32: click (573, 64)
Your task to perform on an android device: uninstall "Microsoft Authenticator" Image 33: 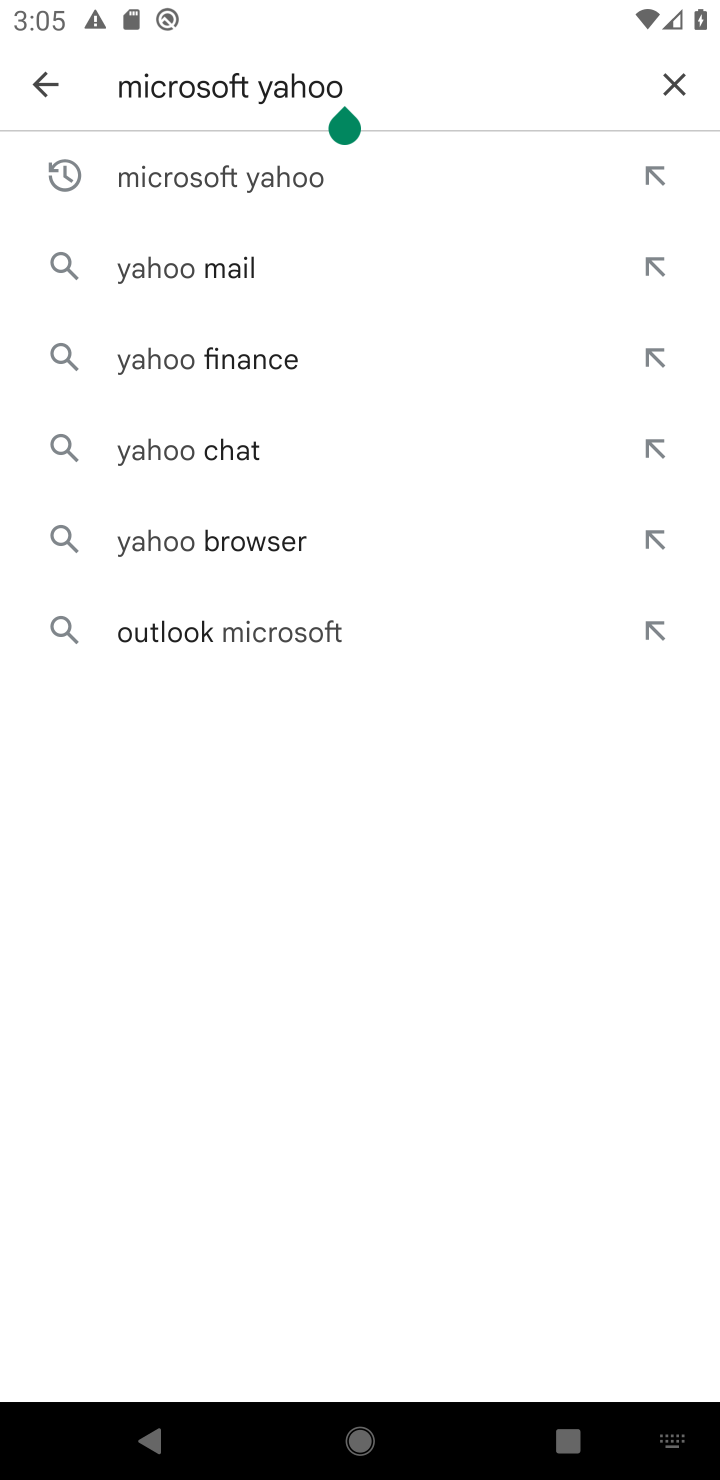
Step 33: click (643, 88)
Your task to perform on an android device: uninstall "Microsoft Authenticator" Image 34: 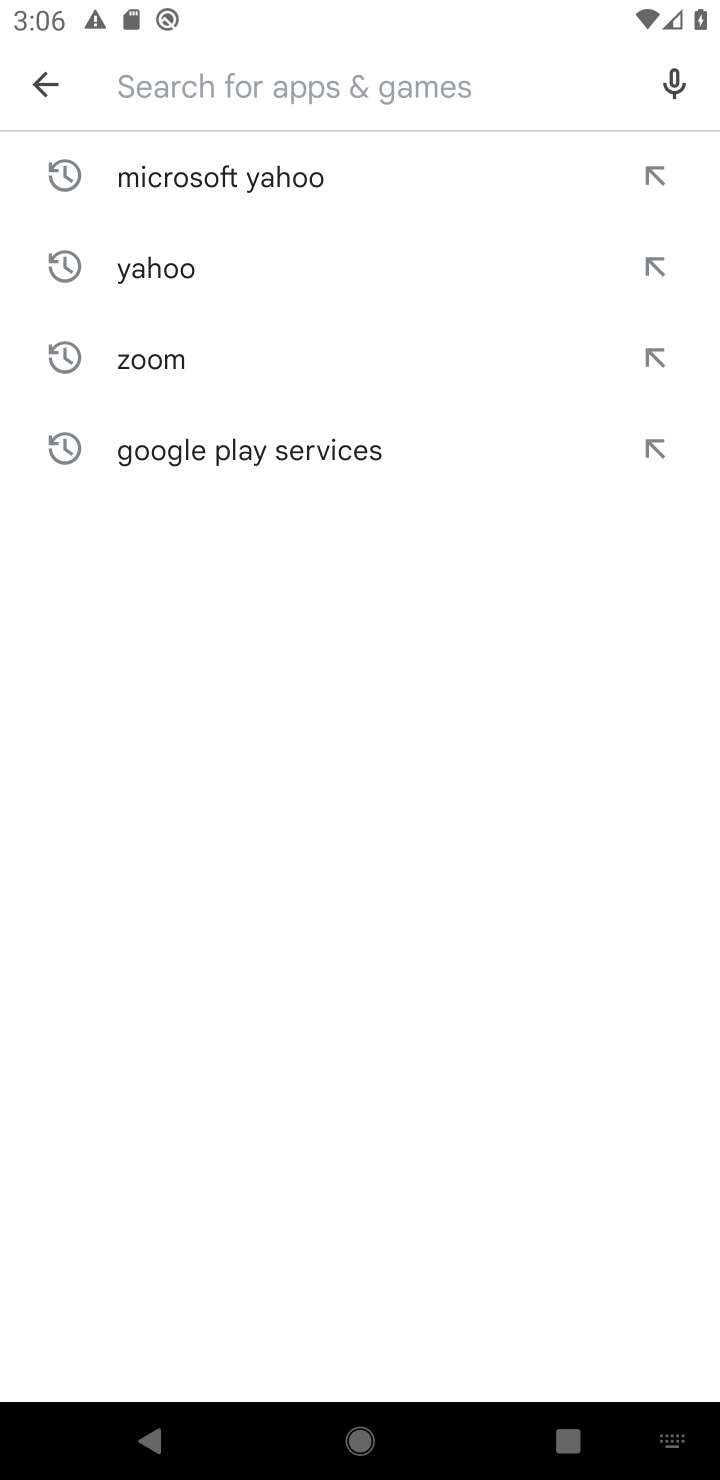
Step 34: type "microsoft authentication"
Your task to perform on an android device: uninstall "Microsoft Authenticator" Image 35: 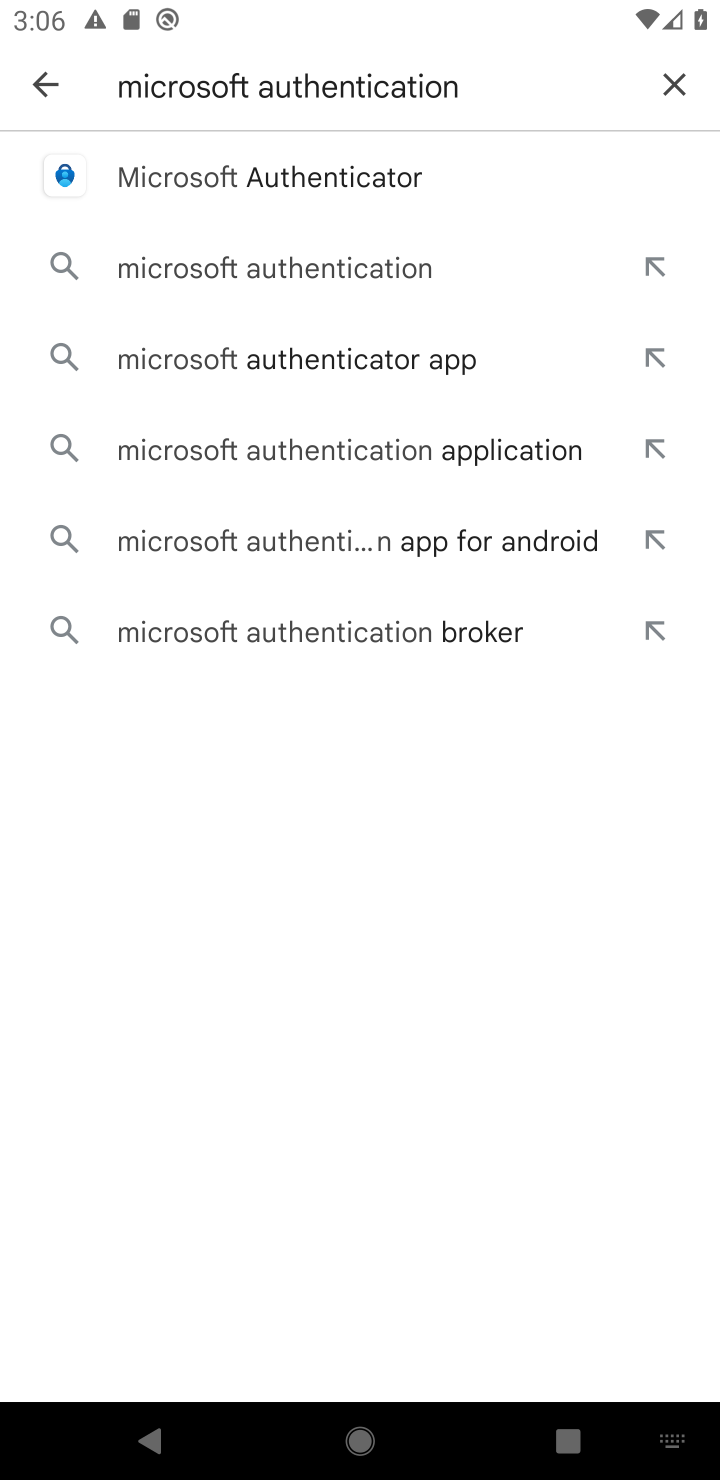
Step 35: click (277, 174)
Your task to perform on an android device: uninstall "Microsoft Authenticator" Image 36: 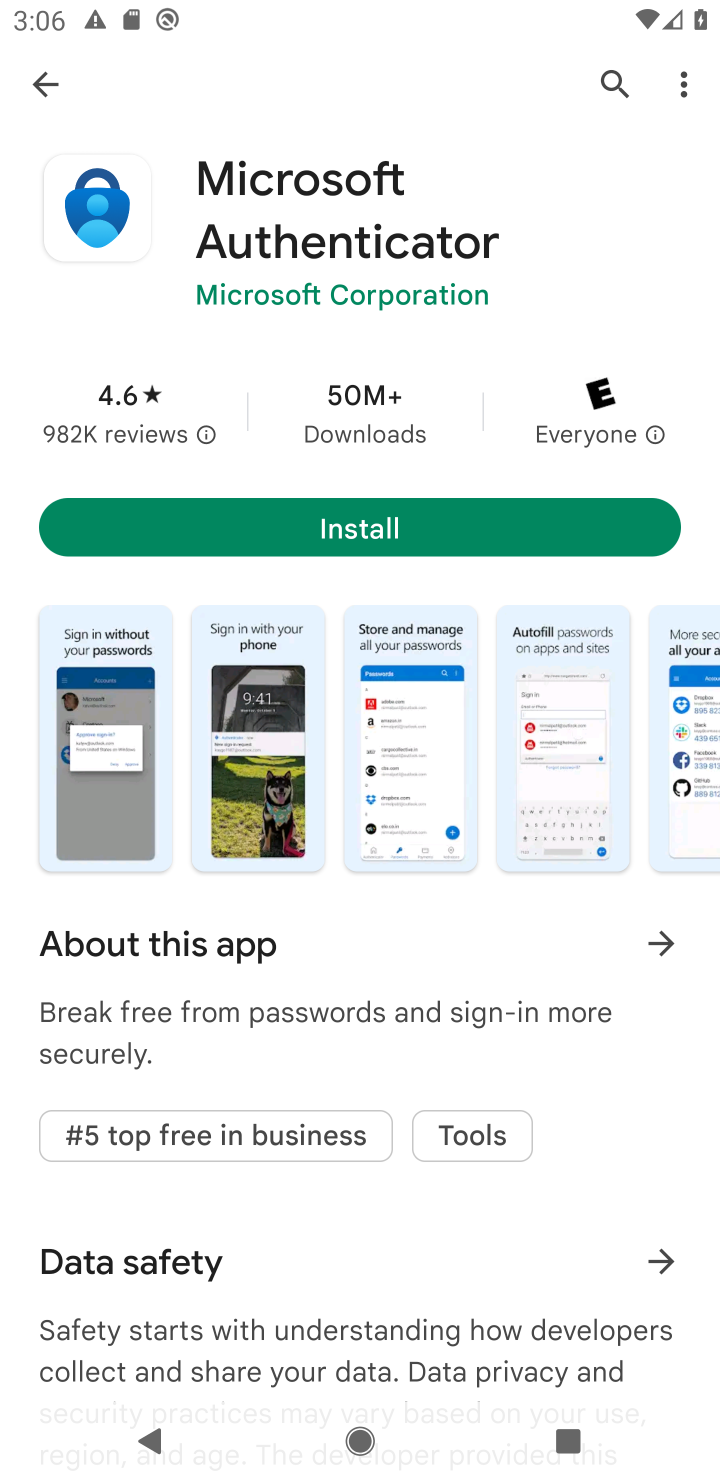
Step 36: click (444, 521)
Your task to perform on an android device: uninstall "Microsoft Authenticator" Image 37: 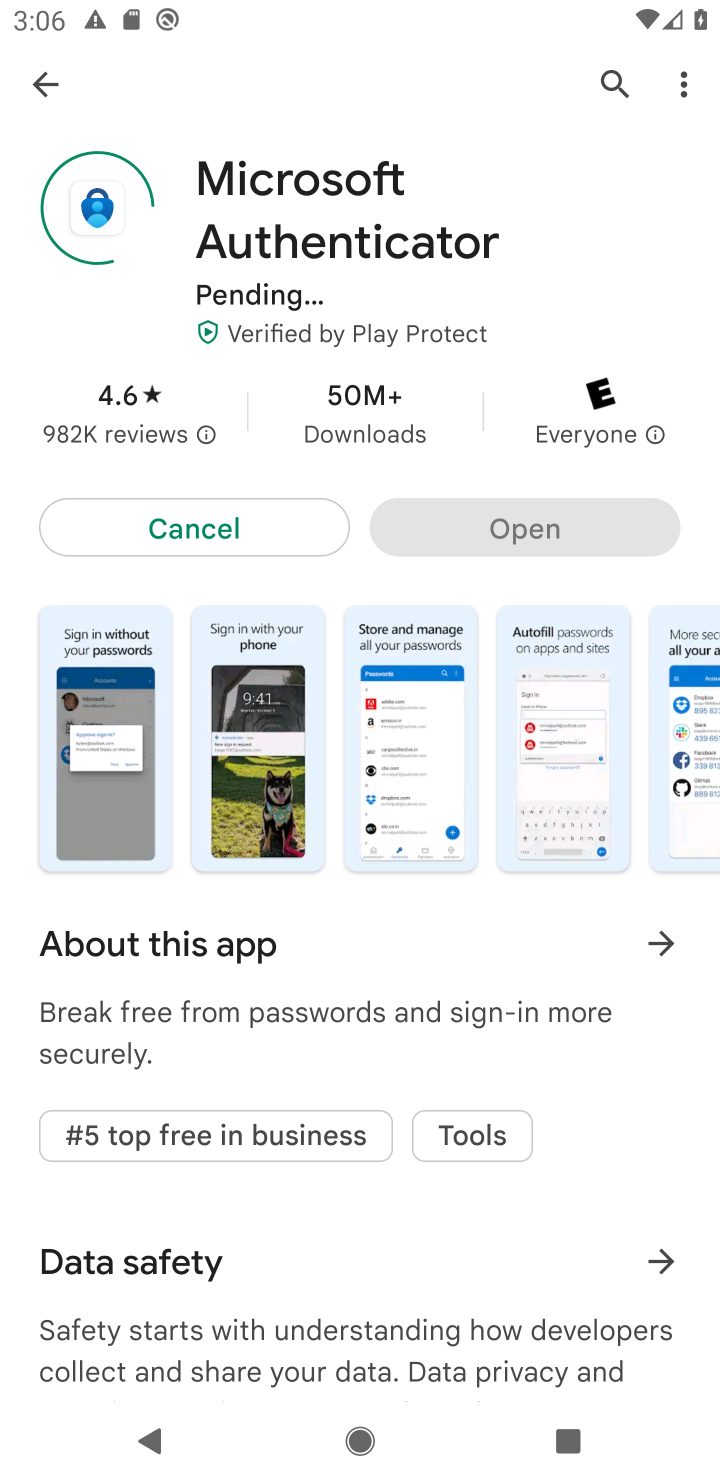
Step 37: click (217, 521)
Your task to perform on an android device: uninstall "Microsoft Authenticator" Image 38: 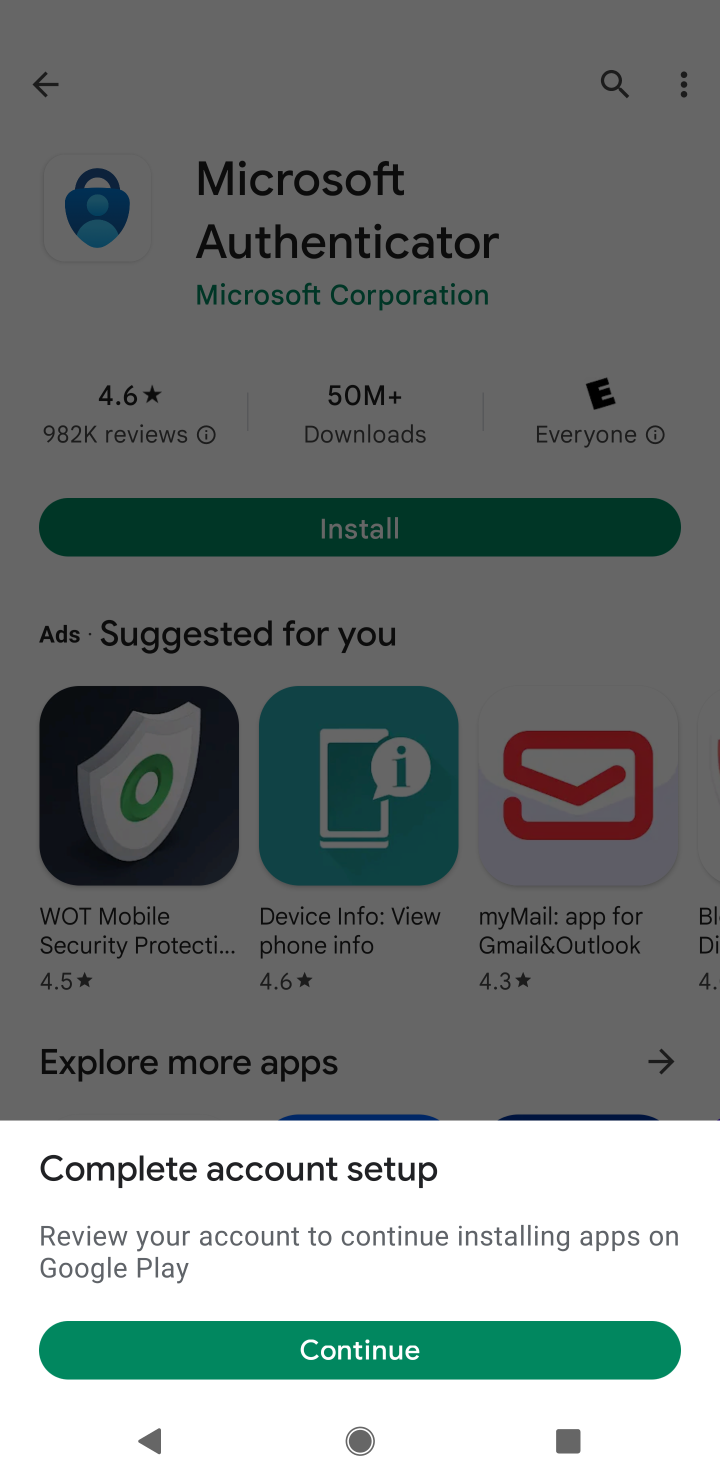
Step 38: task complete